Your task to perform on an android device: delete browsing data in the chrome app Image 0: 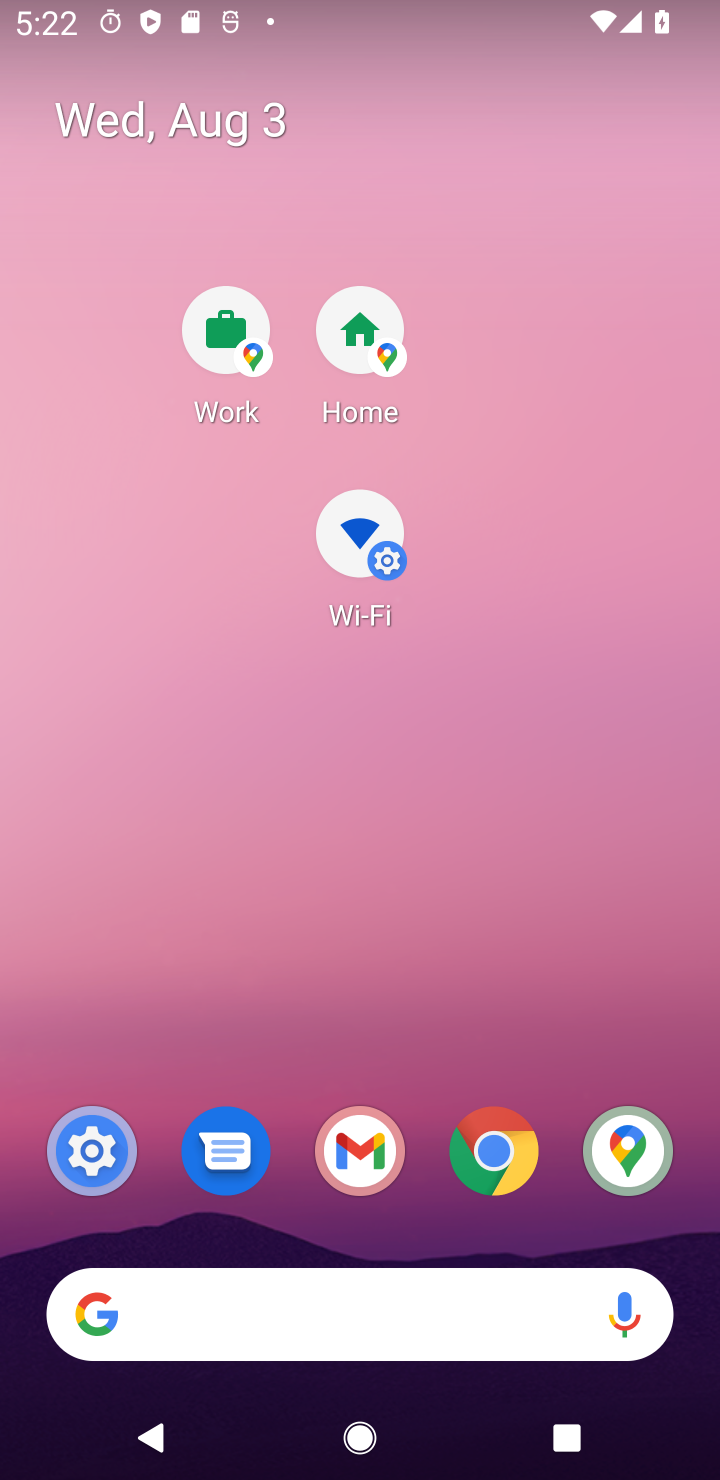
Step 0: drag from (532, 774) to (280, 293)
Your task to perform on an android device: delete browsing data in the chrome app Image 1: 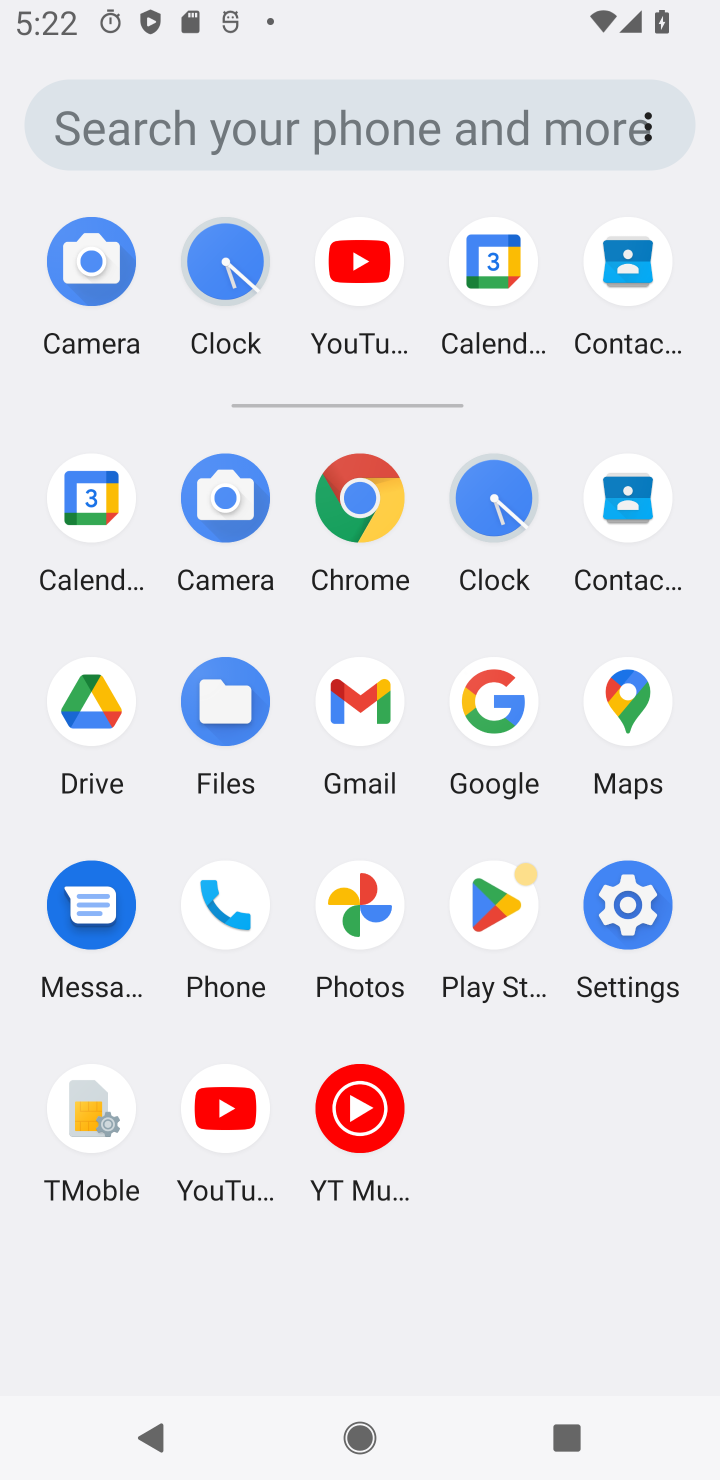
Step 1: click (367, 479)
Your task to perform on an android device: delete browsing data in the chrome app Image 2: 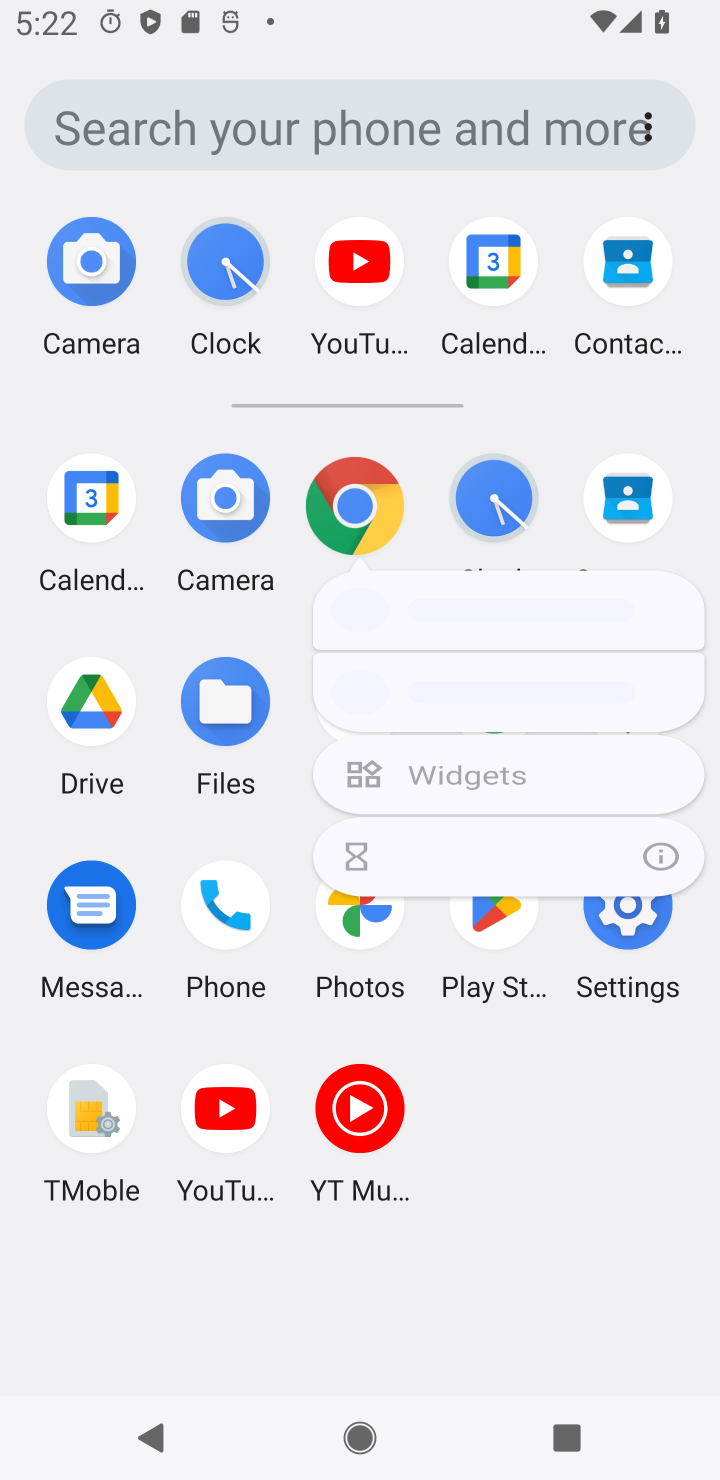
Step 2: click (371, 506)
Your task to perform on an android device: delete browsing data in the chrome app Image 3: 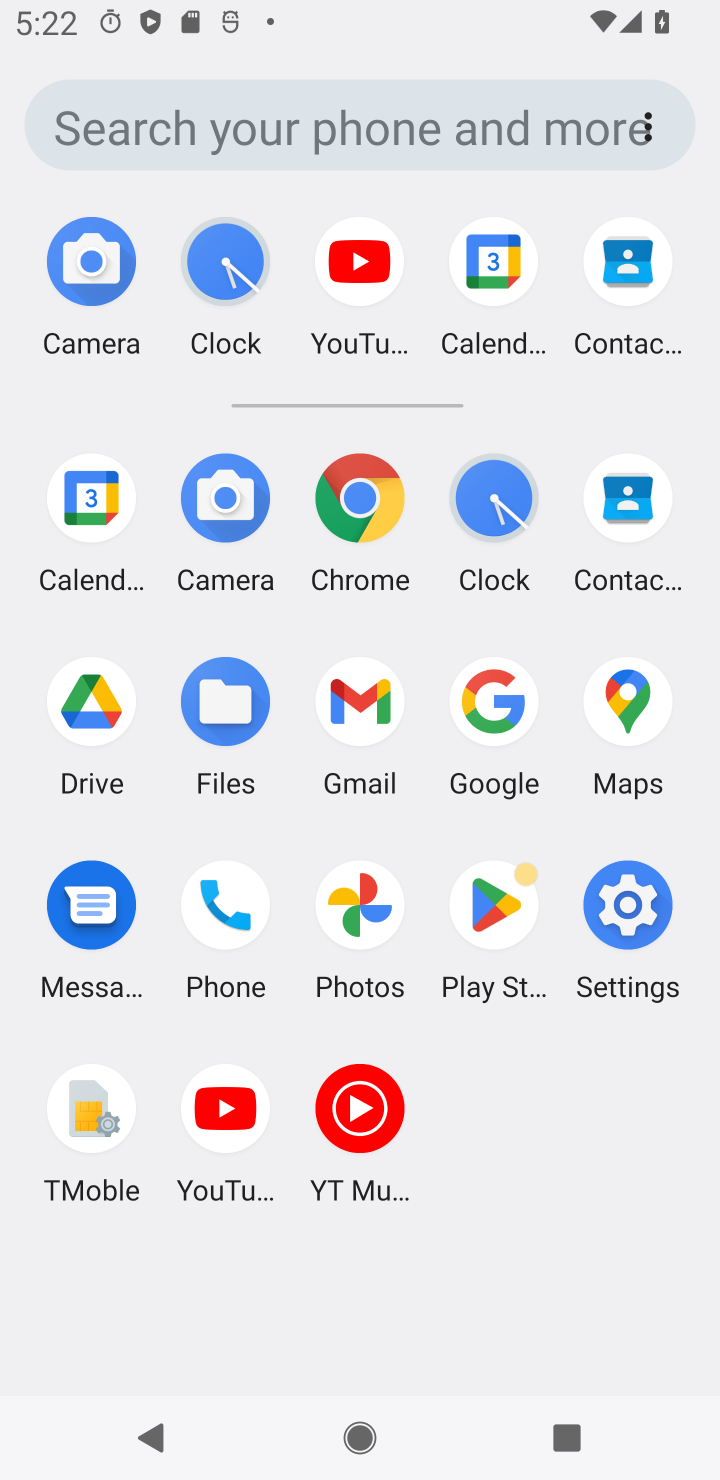
Step 3: click (373, 507)
Your task to perform on an android device: delete browsing data in the chrome app Image 4: 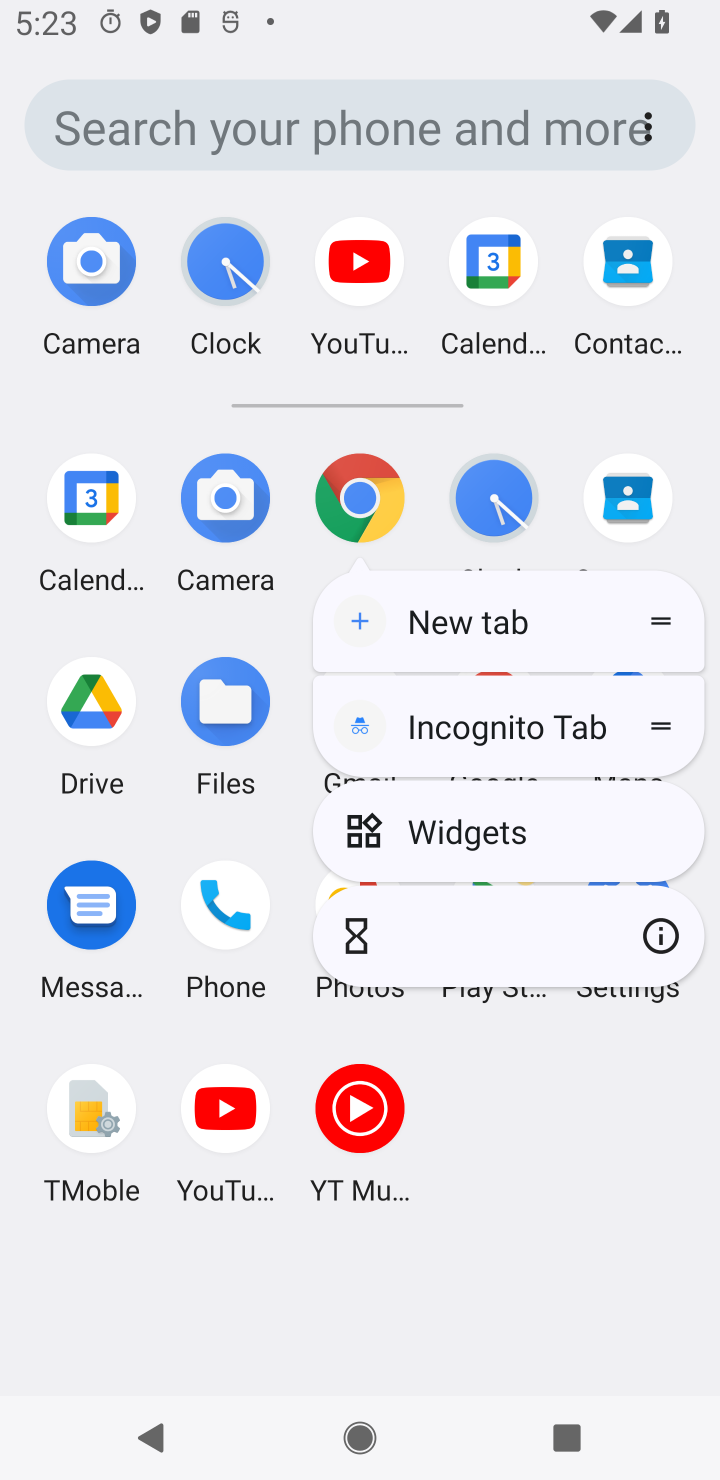
Step 4: click (434, 612)
Your task to perform on an android device: delete browsing data in the chrome app Image 5: 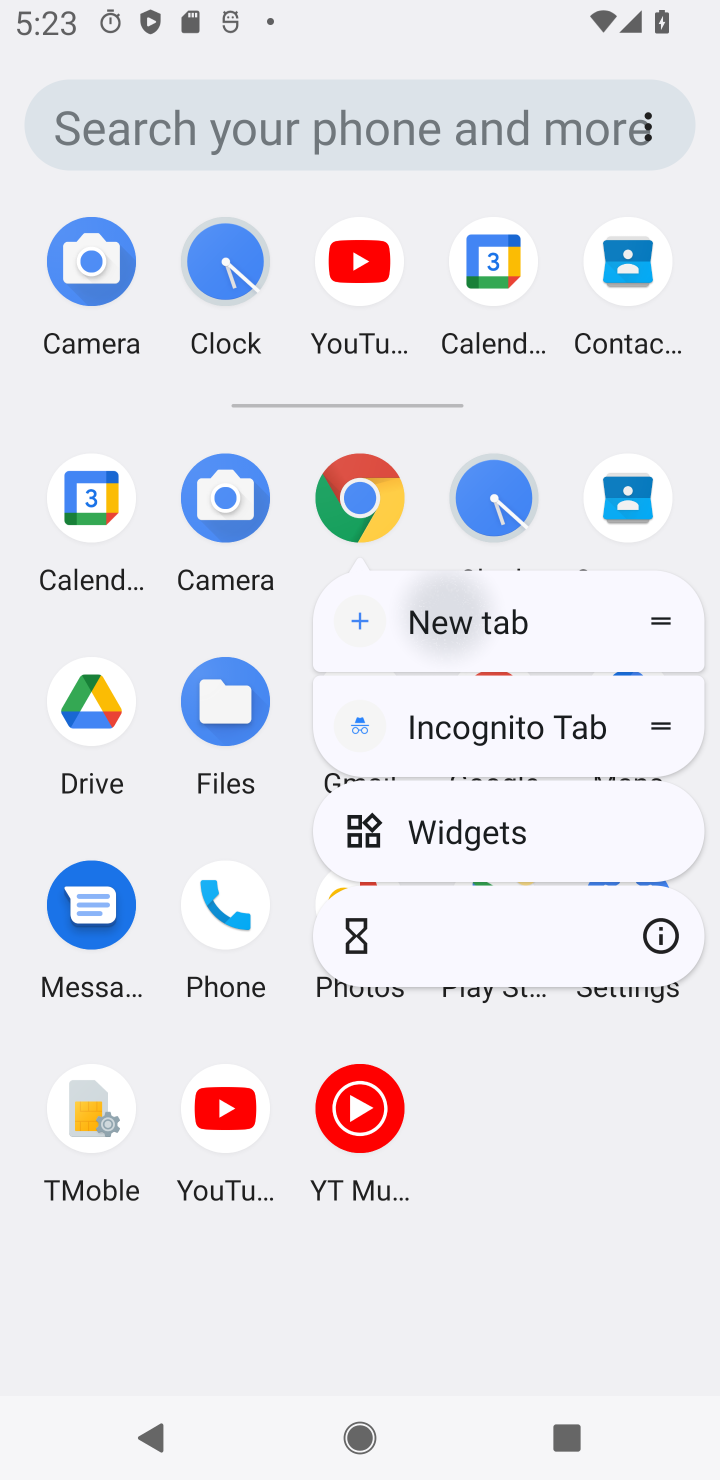
Step 5: click (434, 612)
Your task to perform on an android device: delete browsing data in the chrome app Image 6: 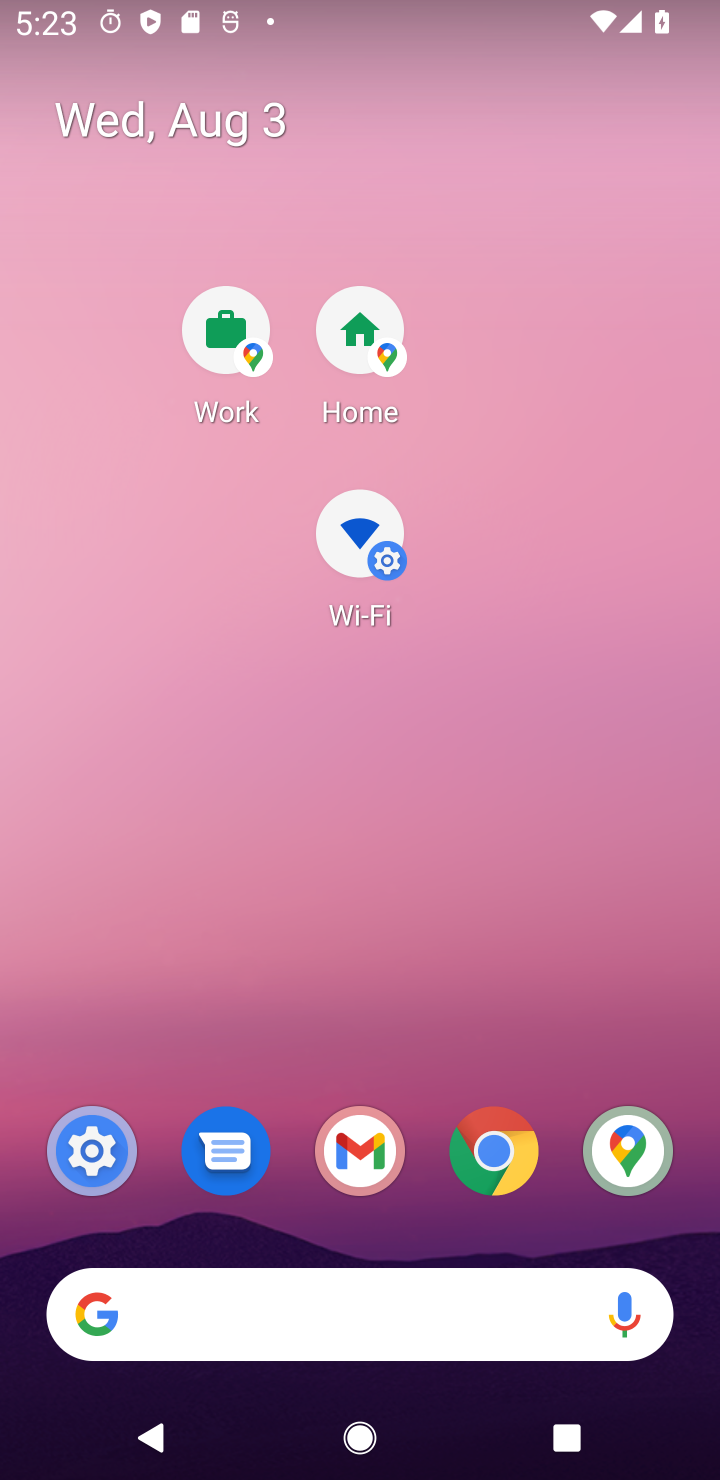
Step 6: click (463, 1153)
Your task to perform on an android device: delete browsing data in the chrome app Image 7: 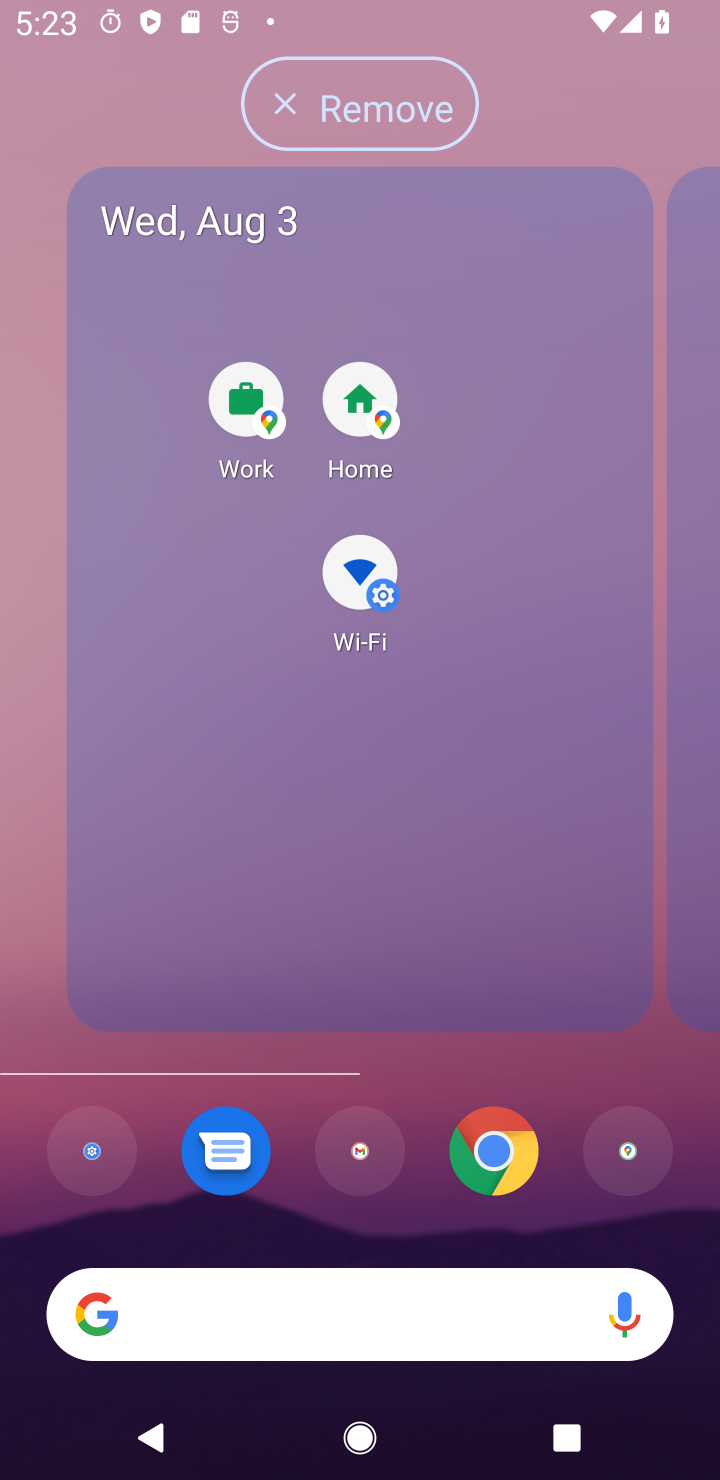
Step 7: click (518, 78)
Your task to perform on an android device: delete browsing data in the chrome app Image 8: 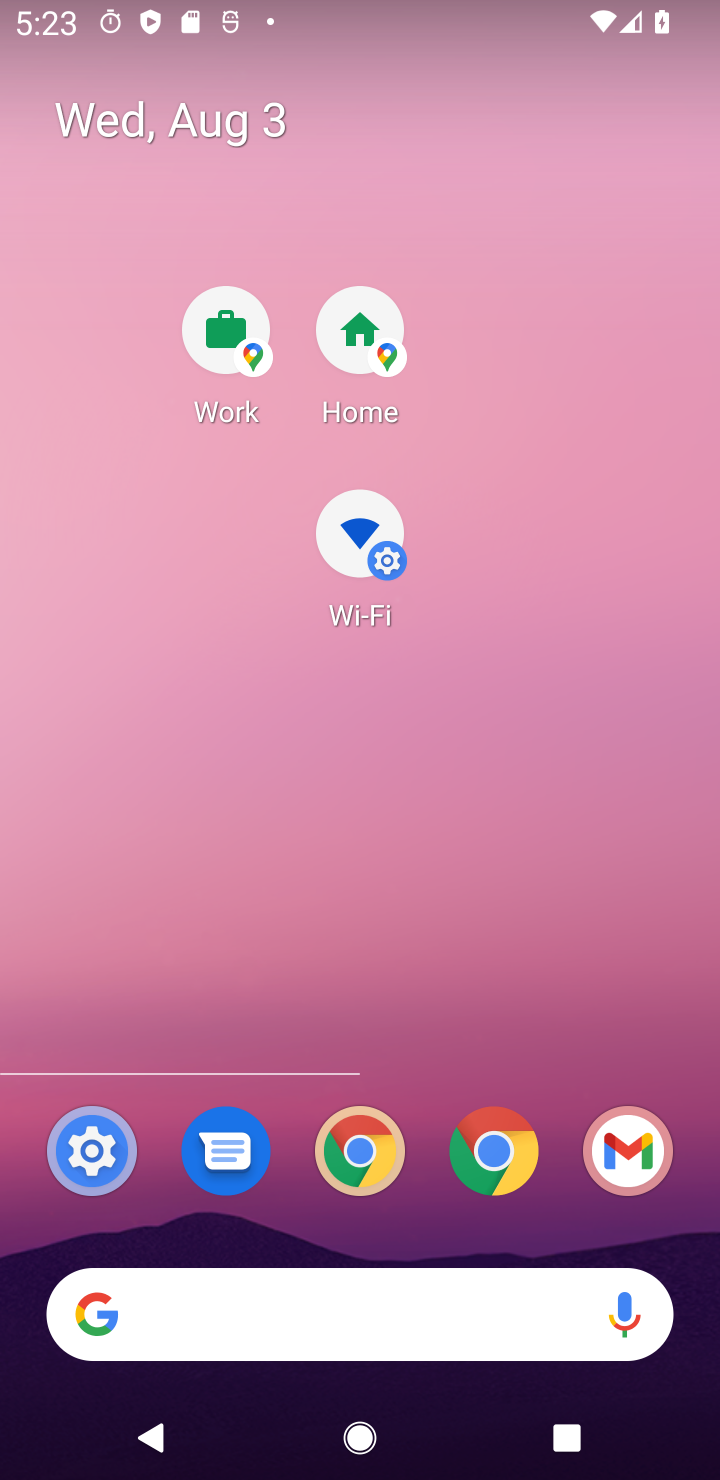
Step 8: click (520, 76)
Your task to perform on an android device: delete browsing data in the chrome app Image 9: 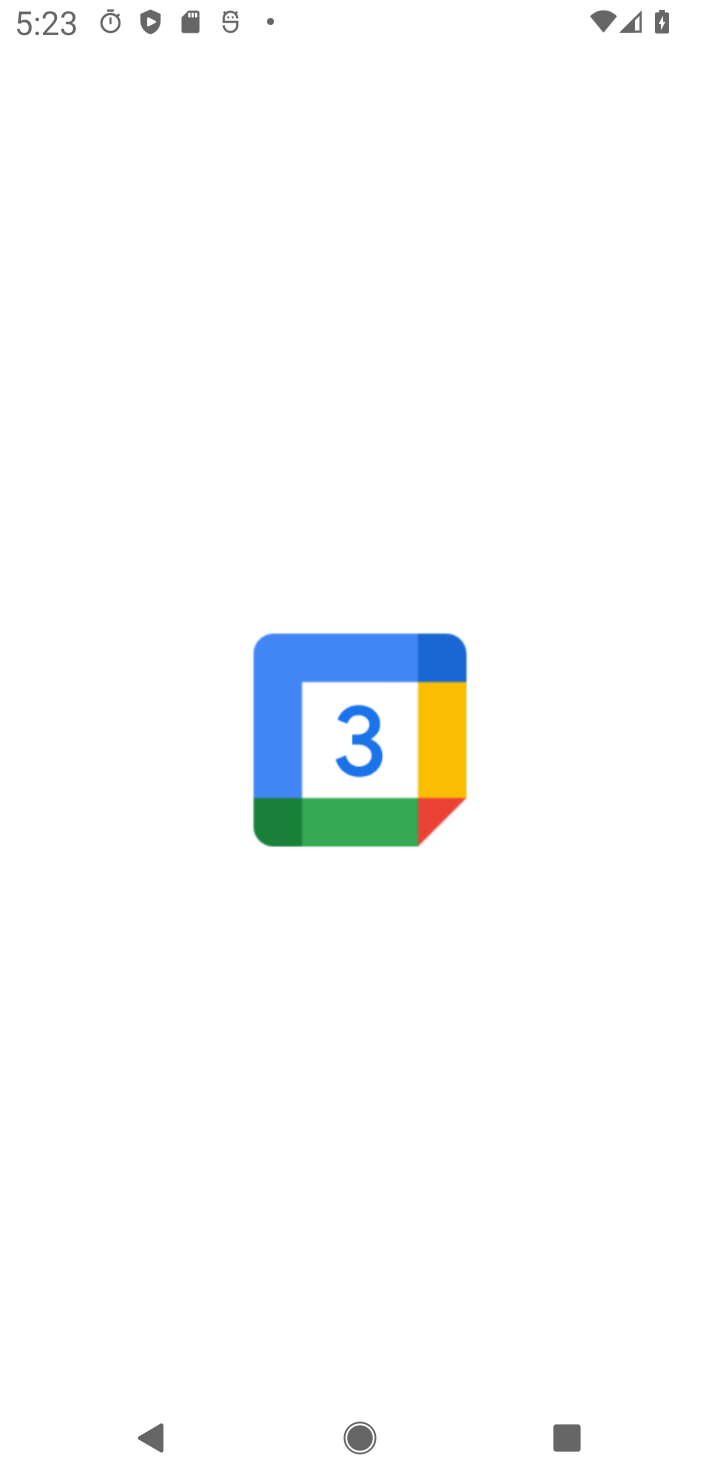
Step 9: drag from (371, 801) to (293, 349)
Your task to perform on an android device: delete browsing data in the chrome app Image 10: 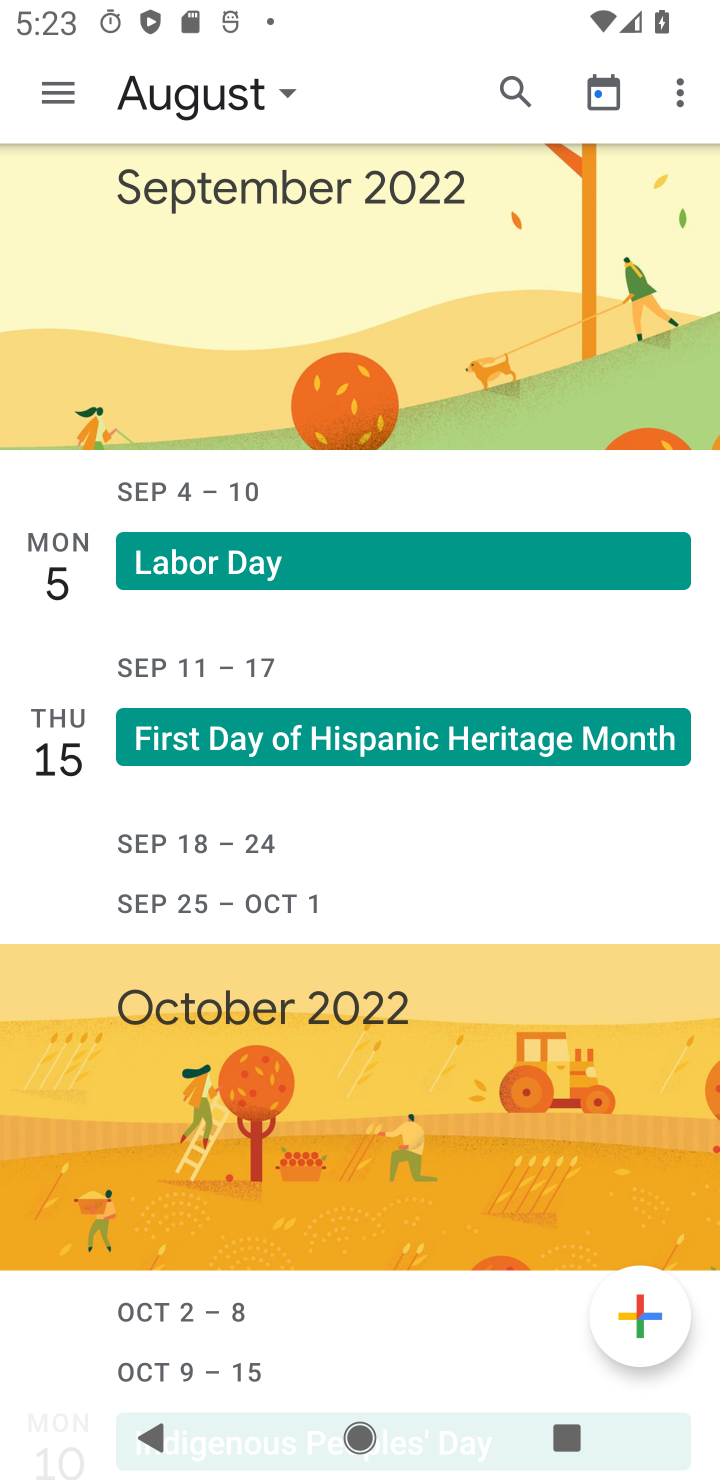
Step 10: press back button
Your task to perform on an android device: delete browsing data in the chrome app Image 11: 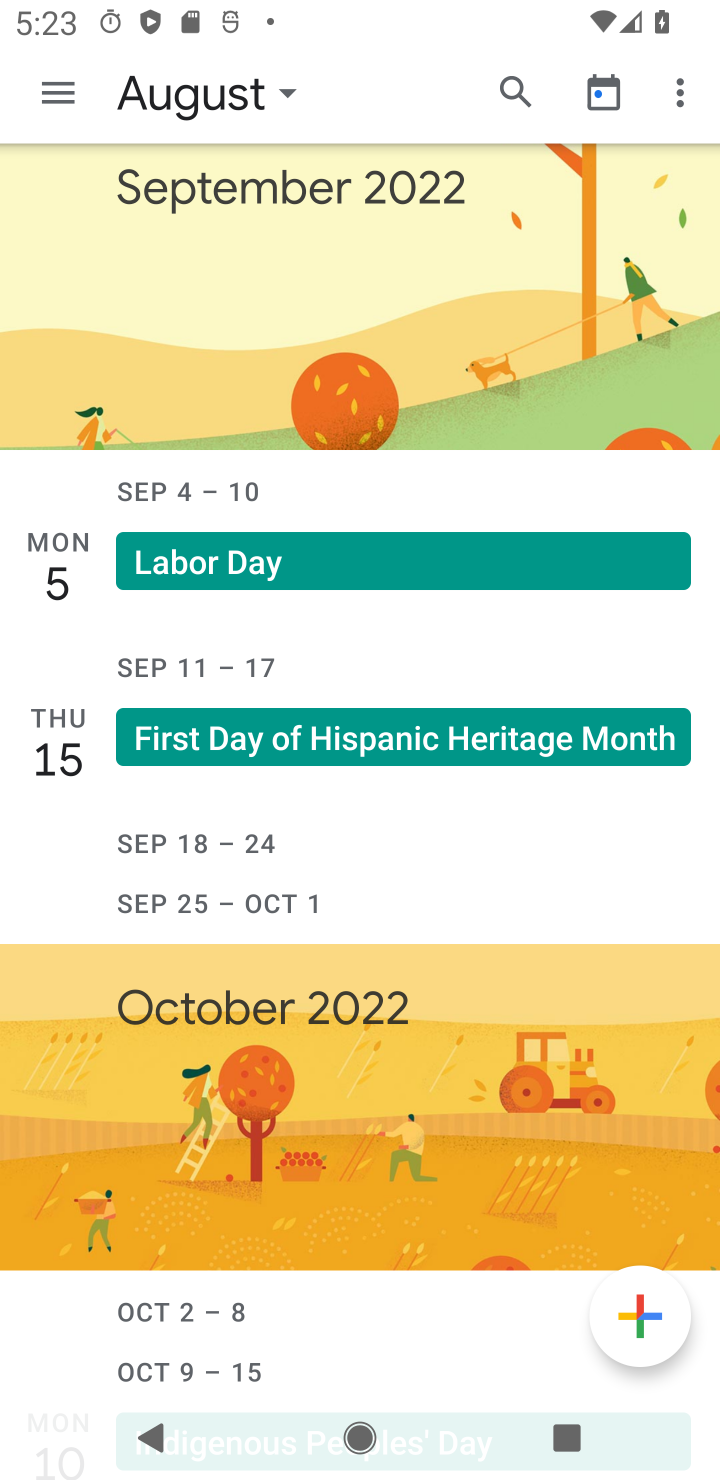
Step 11: press back button
Your task to perform on an android device: delete browsing data in the chrome app Image 12: 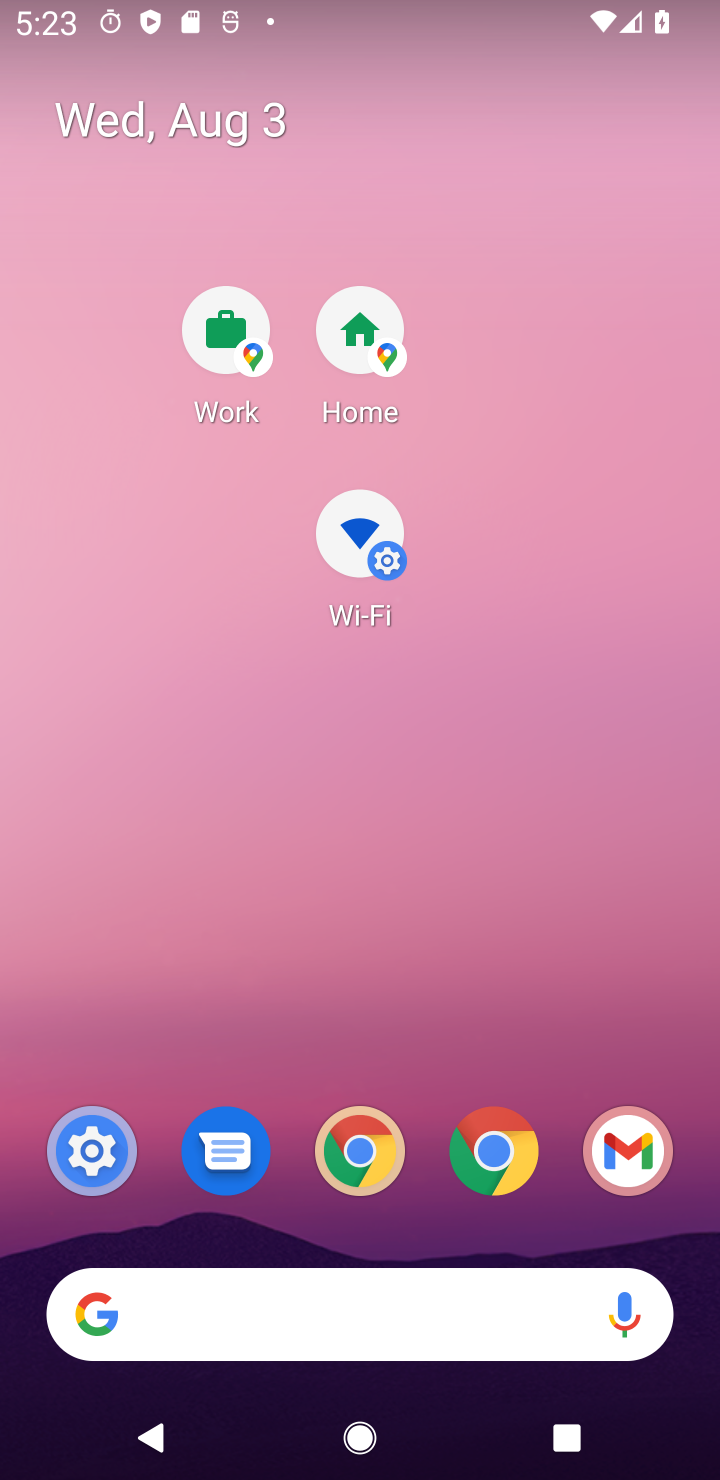
Step 12: click (279, 510)
Your task to perform on an android device: delete browsing data in the chrome app Image 13: 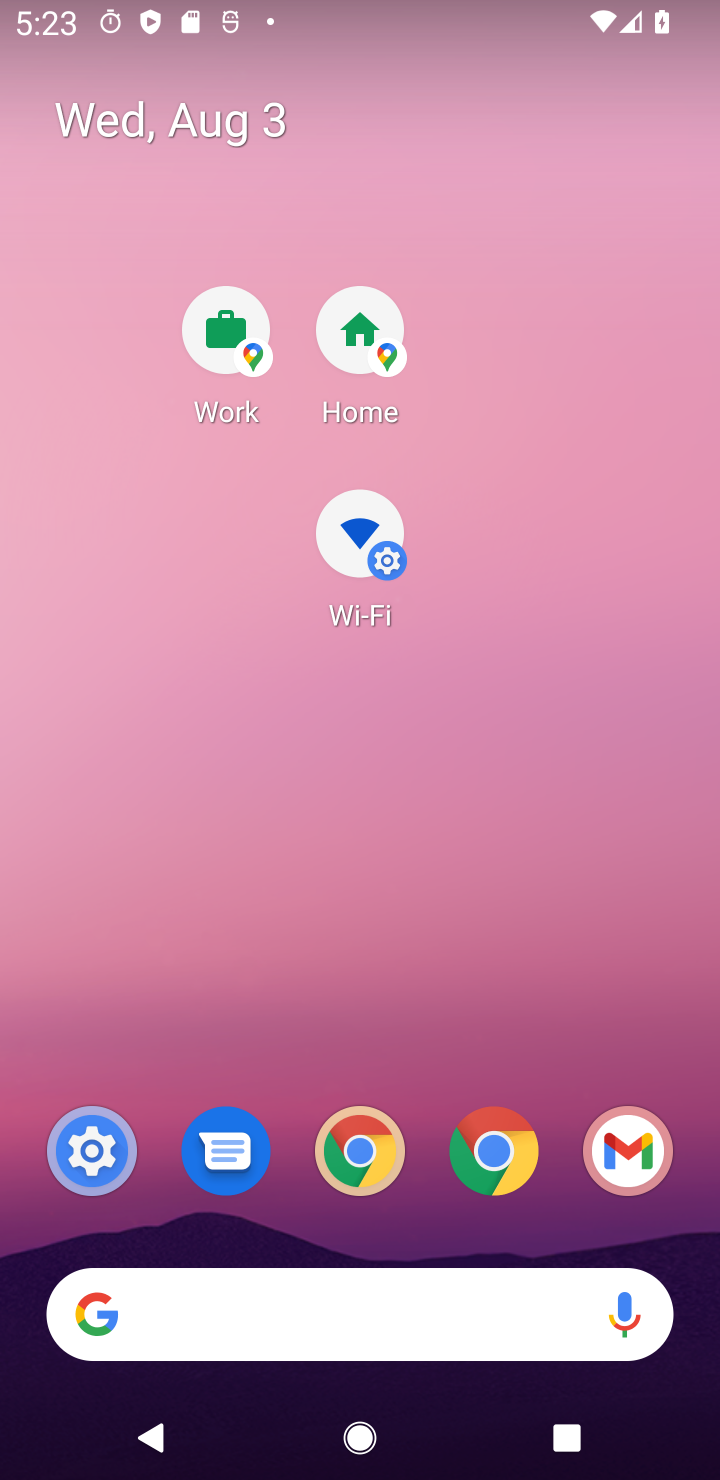
Step 13: drag from (422, 924) to (312, 298)
Your task to perform on an android device: delete browsing data in the chrome app Image 14: 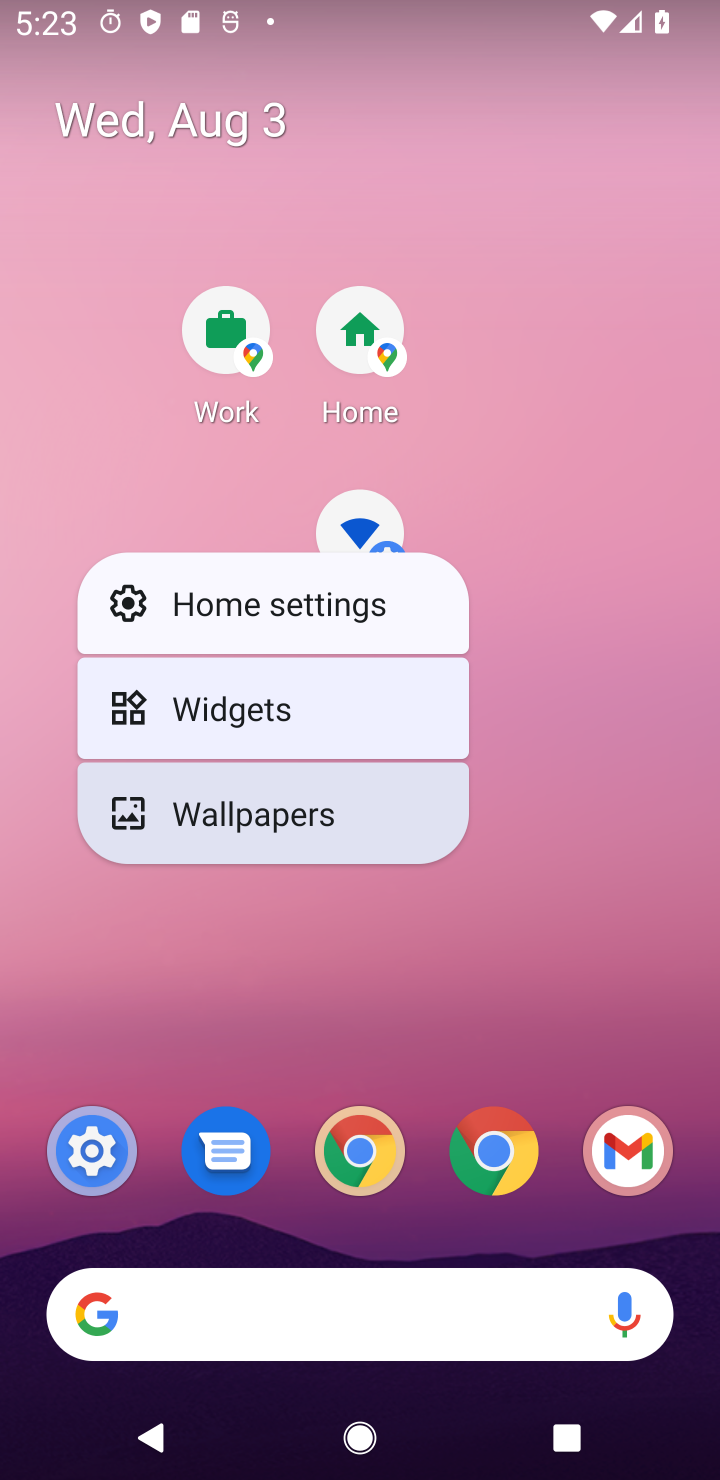
Step 14: drag from (457, 685) to (374, 378)
Your task to perform on an android device: delete browsing data in the chrome app Image 15: 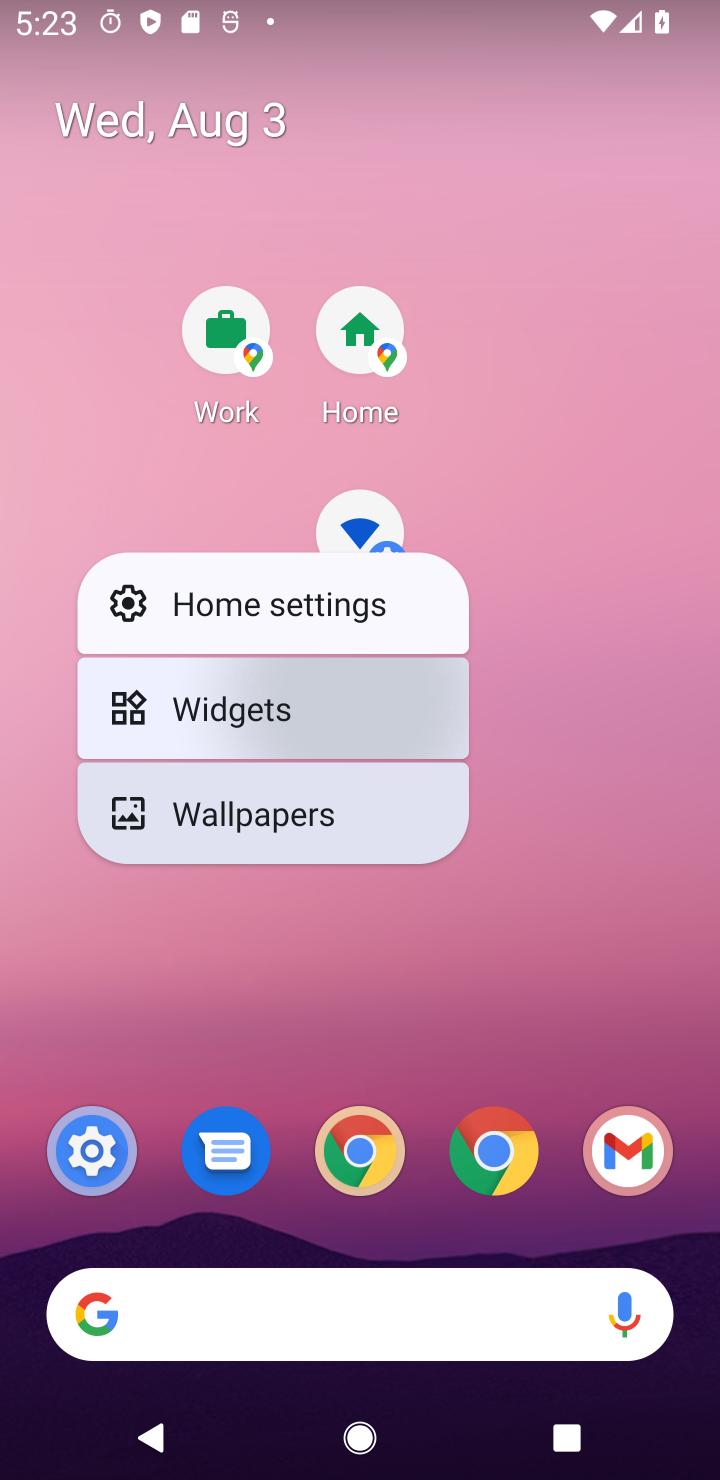
Step 15: drag from (365, 362) to (396, 439)
Your task to perform on an android device: delete browsing data in the chrome app Image 16: 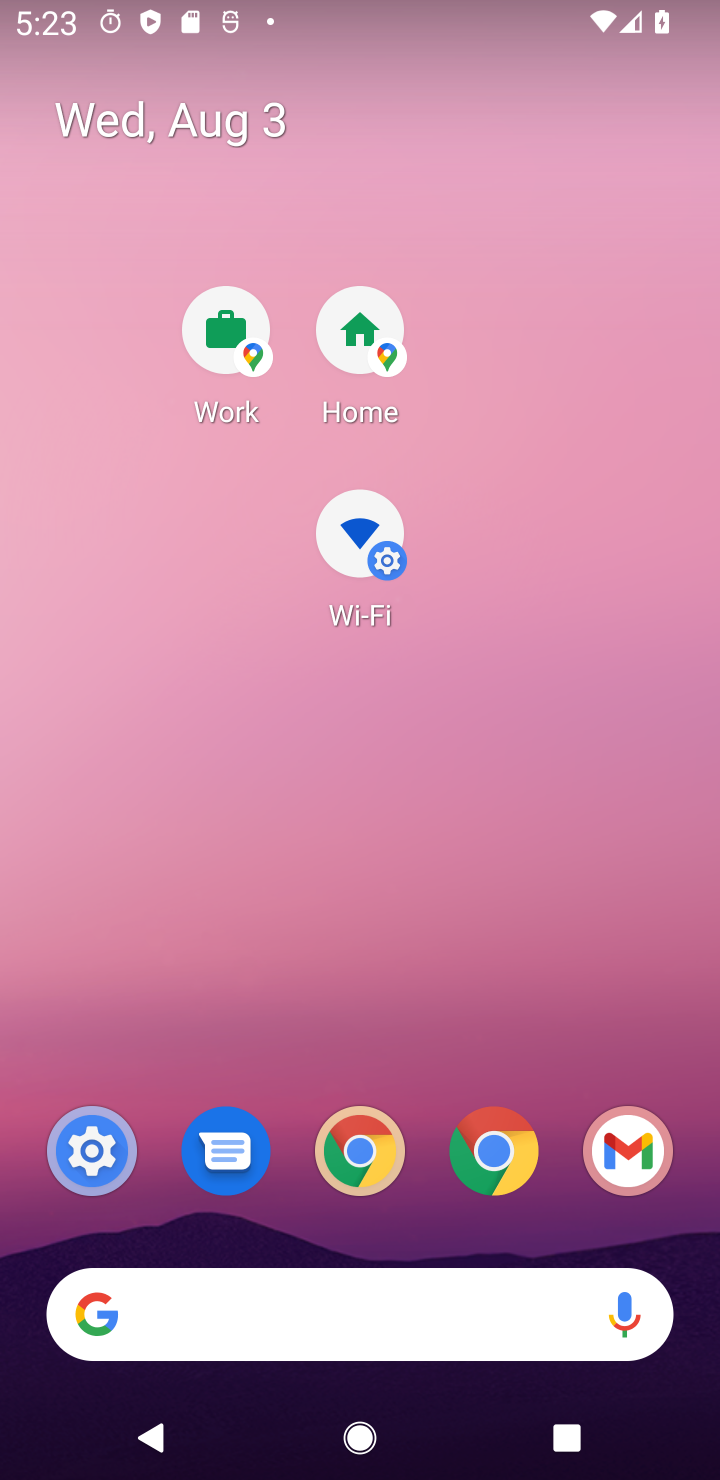
Step 16: drag from (439, 486) to (281, 646)
Your task to perform on an android device: delete browsing data in the chrome app Image 17: 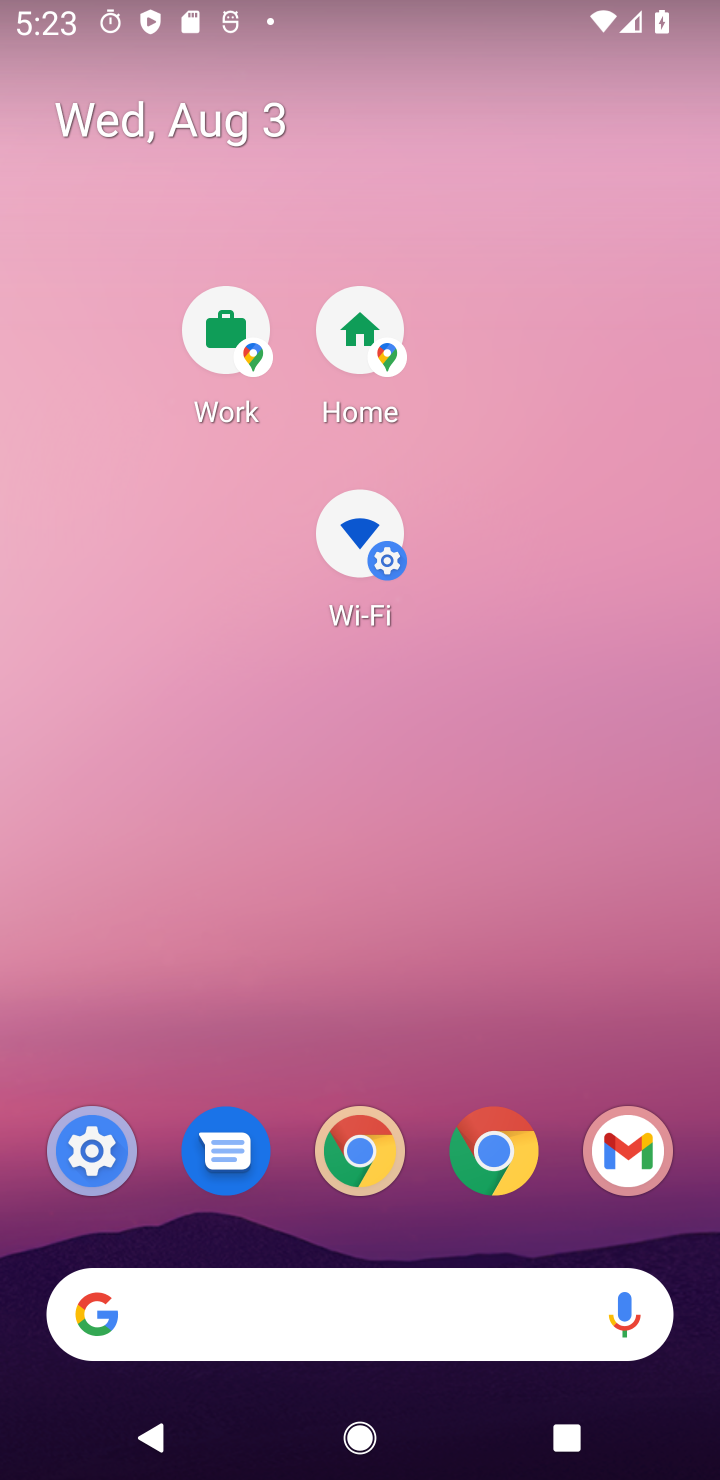
Step 17: drag from (453, 778) to (341, 387)
Your task to perform on an android device: delete browsing data in the chrome app Image 18: 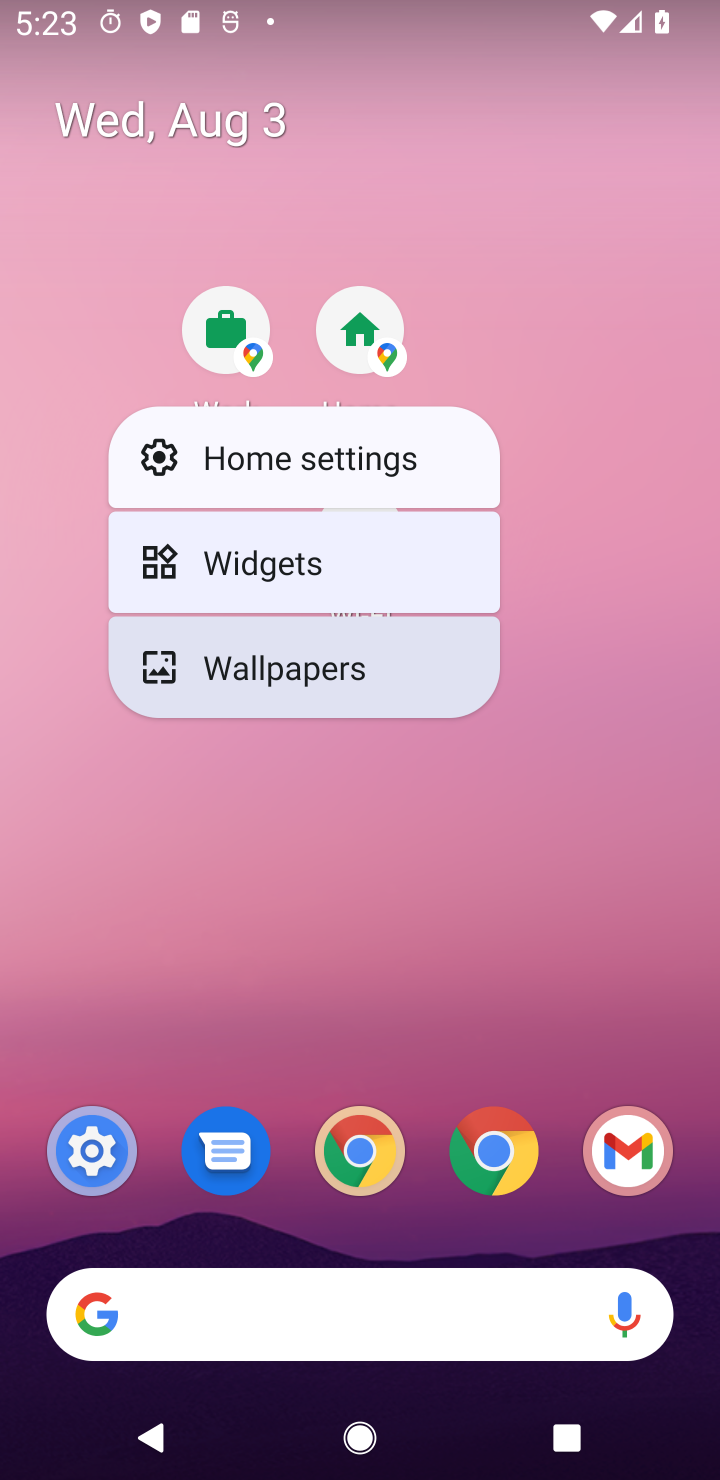
Step 18: click (414, 590)
Your task to perform on an android device: delete browsing data in the chrome app Image 19: 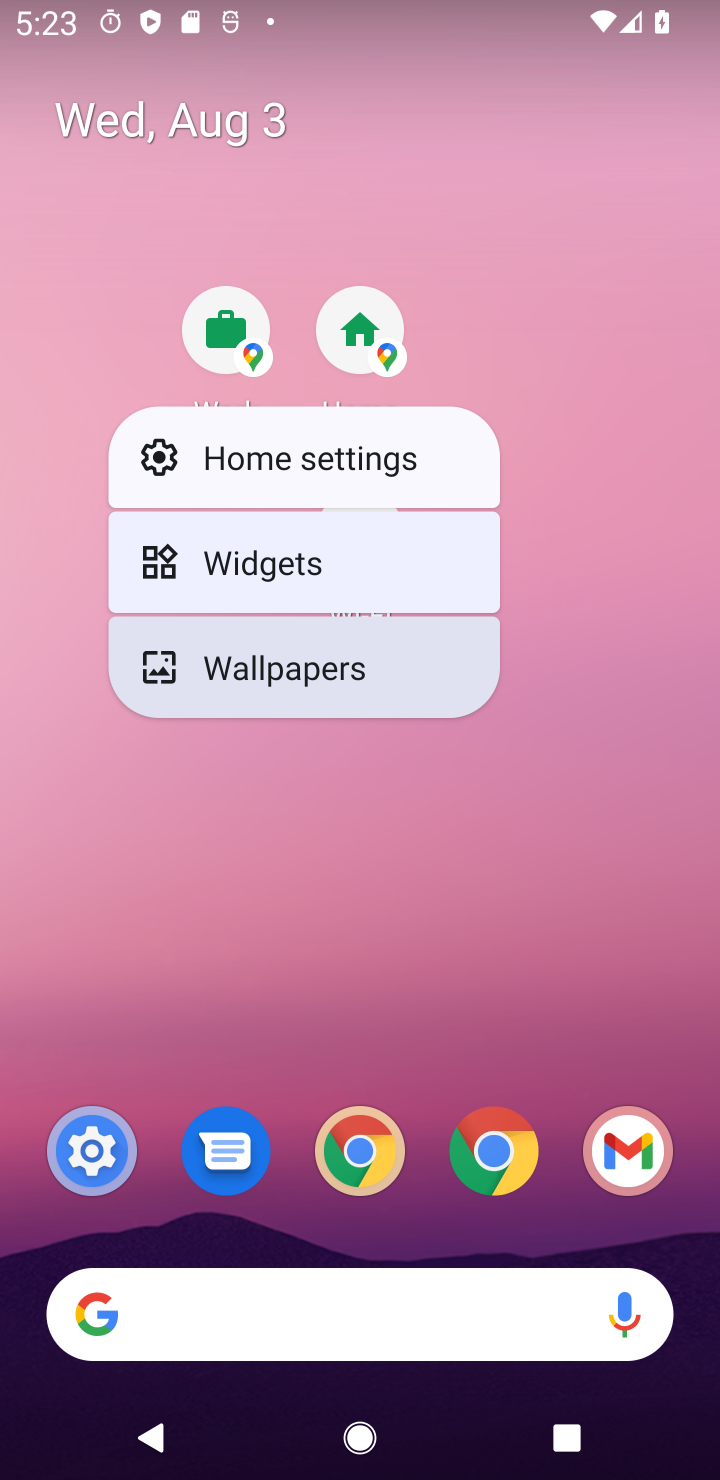
Step 19: drag from (426, 839) to (637, 411)
Your task to perform on an android device: delete browsing data in the chrome app Image 20: 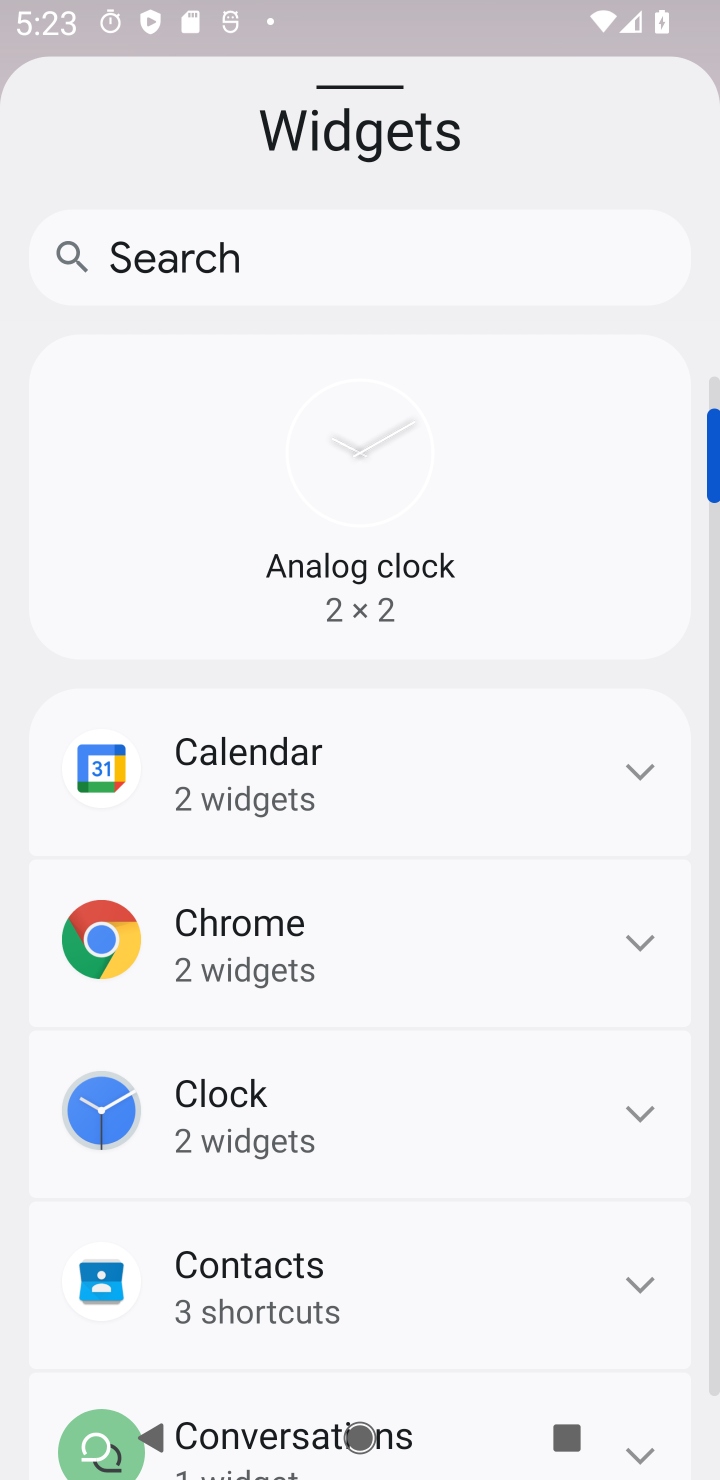
Step 20: press back button
Your task to perform on an android device: delete browsing data in the chrome app Image 21: 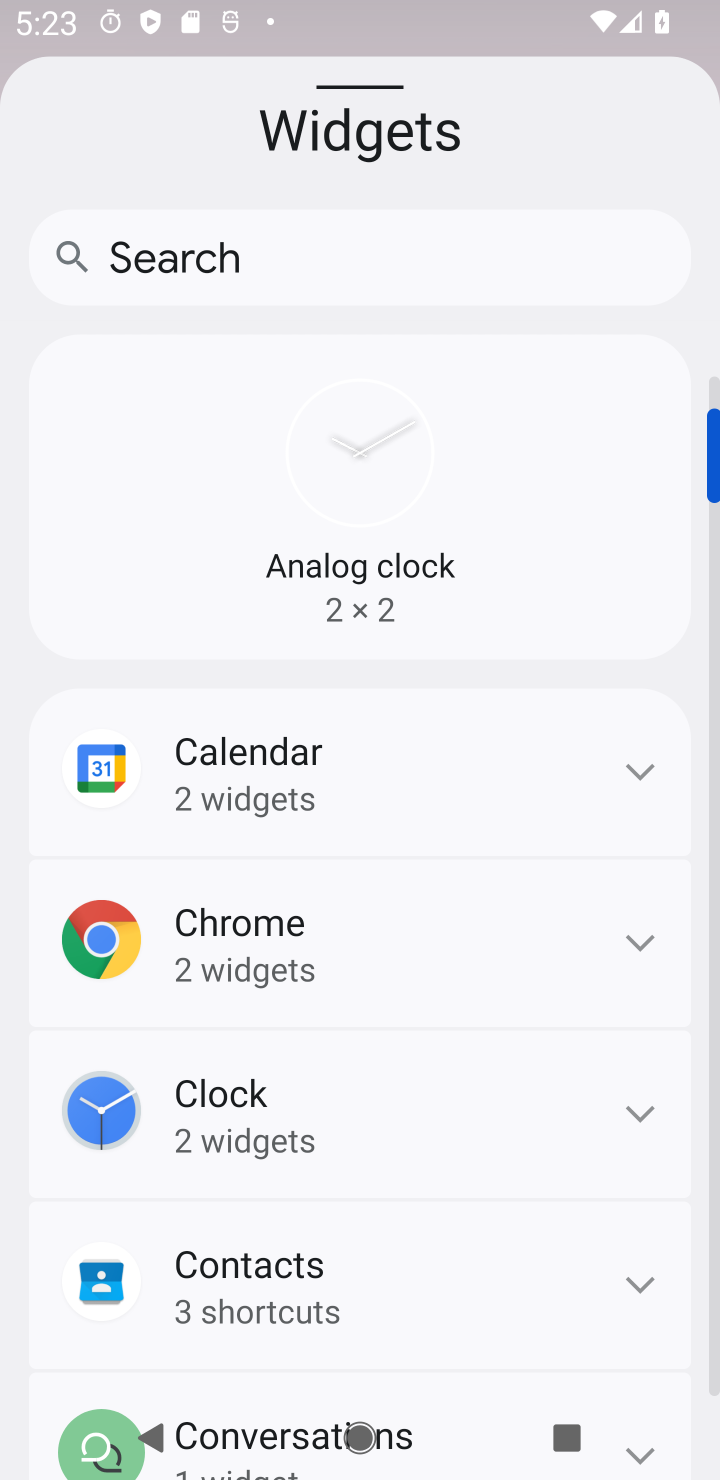
Step 21: press back button
Your task to perform on an android device: delete browsing data in the chrome app Image 22: 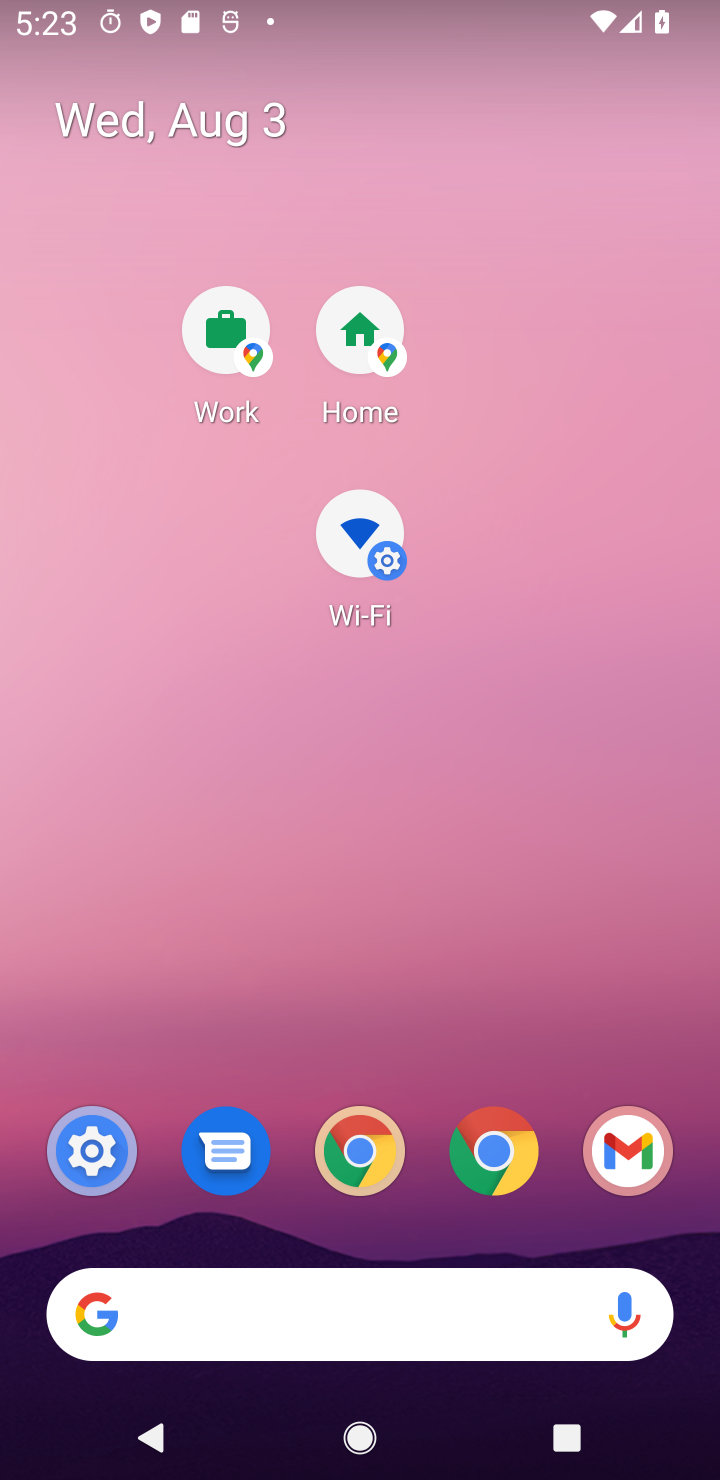
Step 22: press back button
Your task to perform on an android device: delete browsing data in the chrome app Image 23: 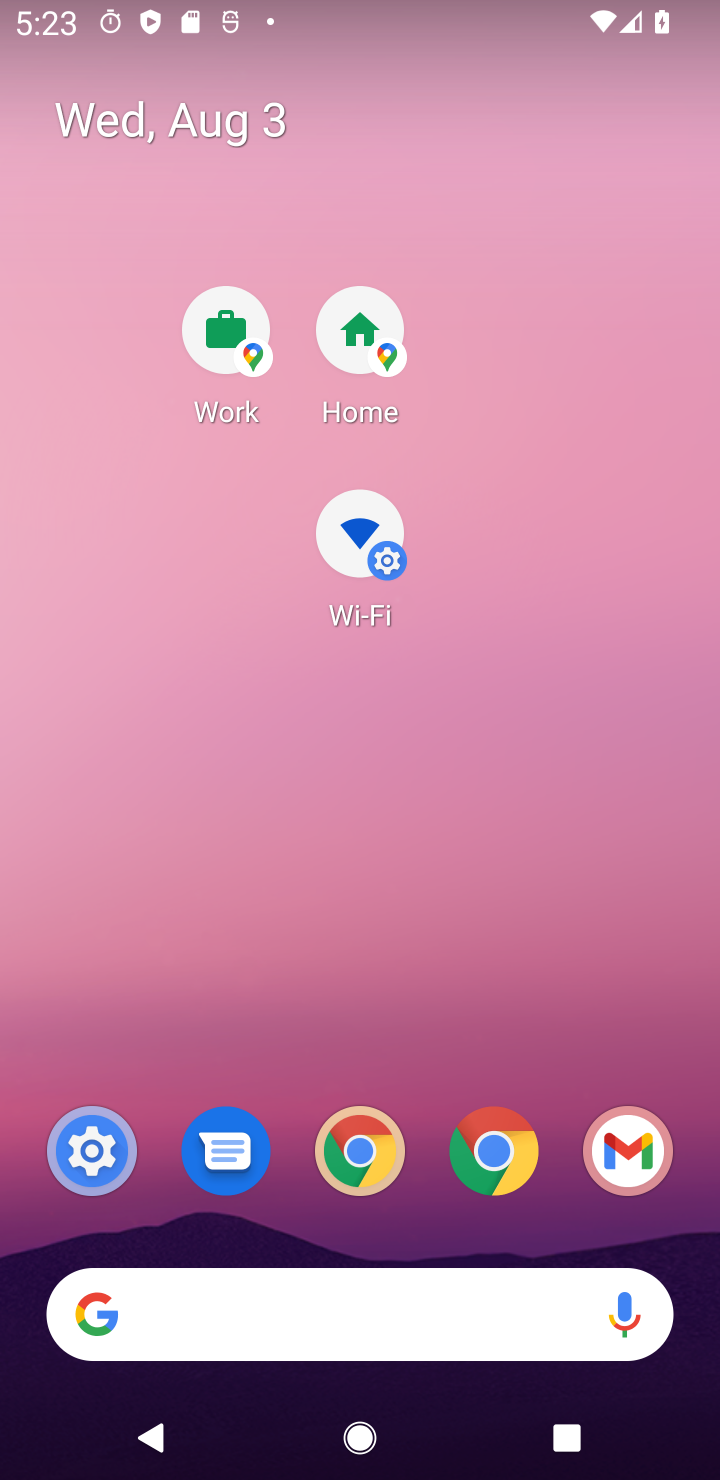
Step 23: press back button
Your task to perform on an android device: delete browsing data in the chrome app Image 24: 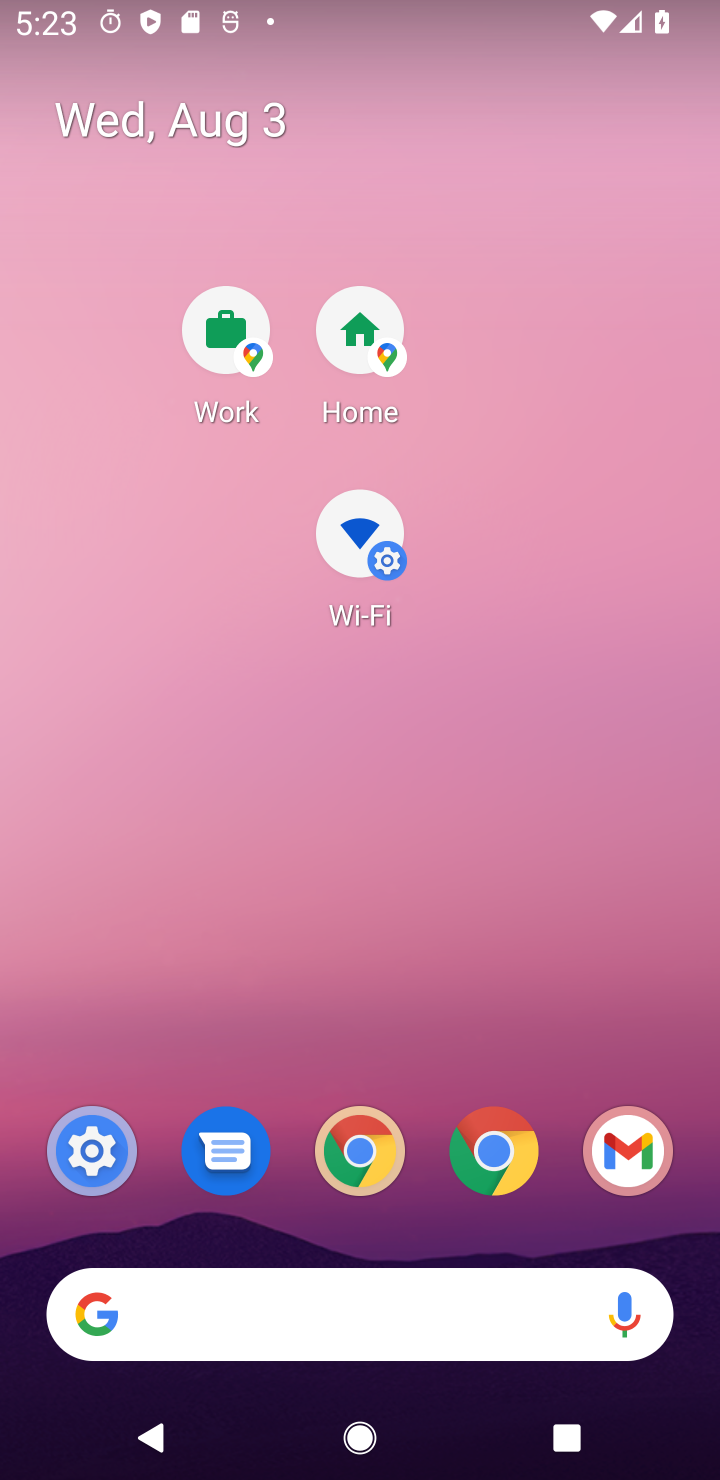
Step 24: click (266, 437)
Your task to perform on an android device: delete browsing data in the chrome app Image 25: 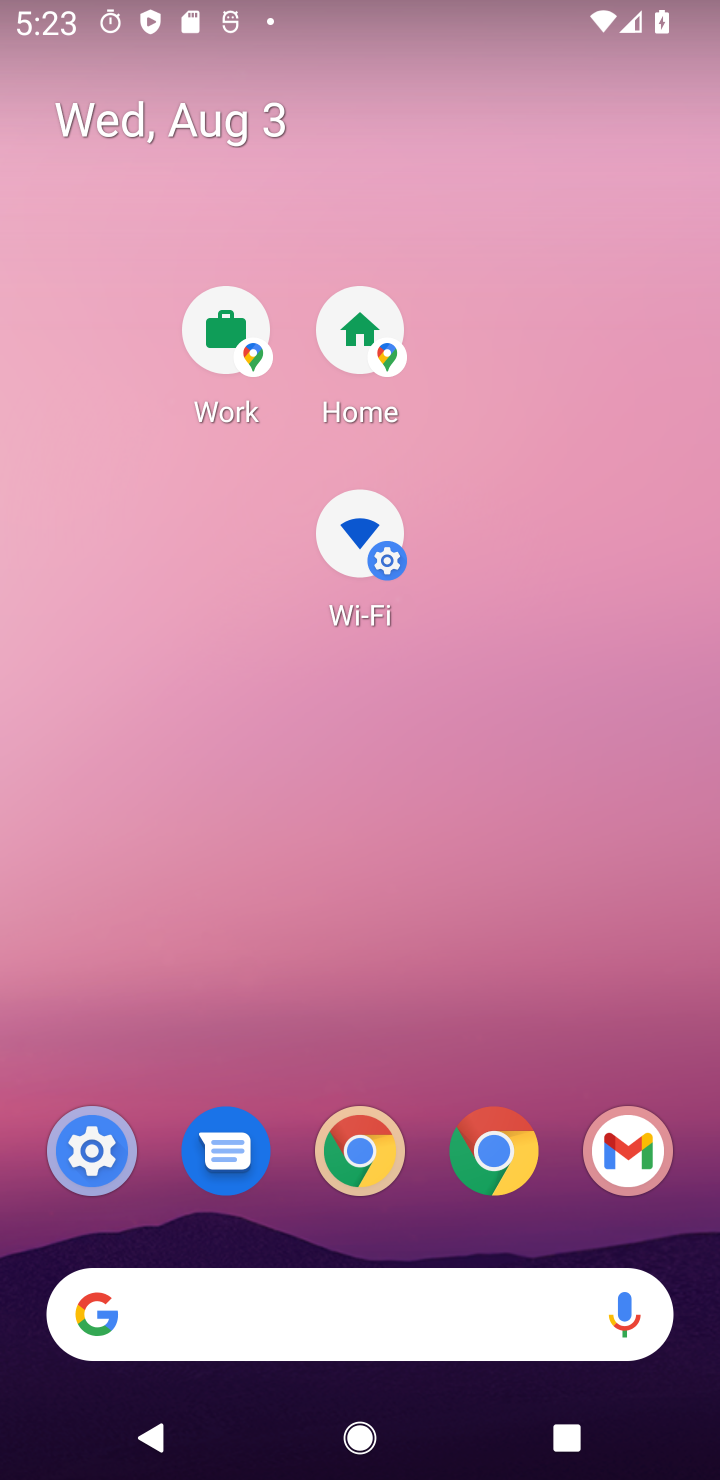
Step 25: drag from (533, 1341) to (282, 347)
Your task to perform on an android device: delete browsing data in the chrome app Image 26: 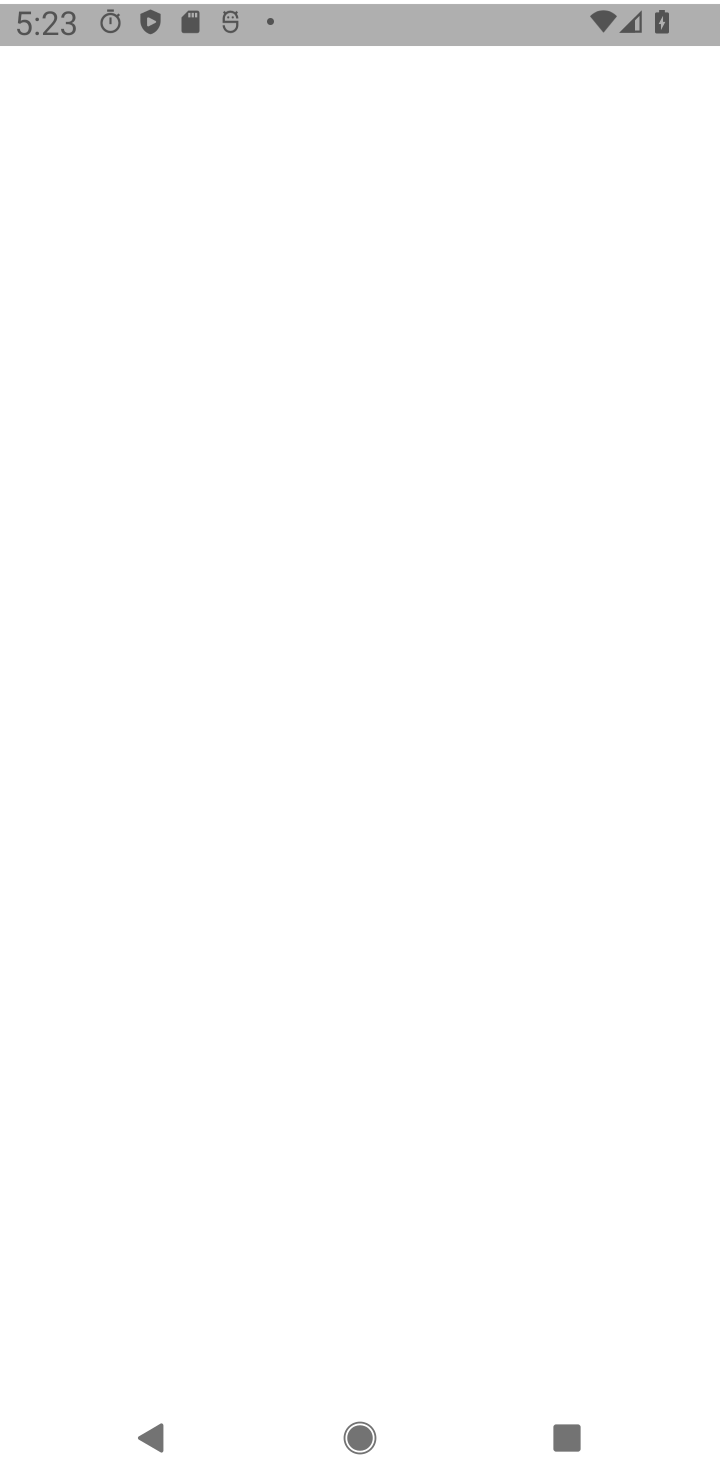
Step 26: click (340, 305)
Your task to perform on an android device: delete browsing data in the chrome app Image 27: 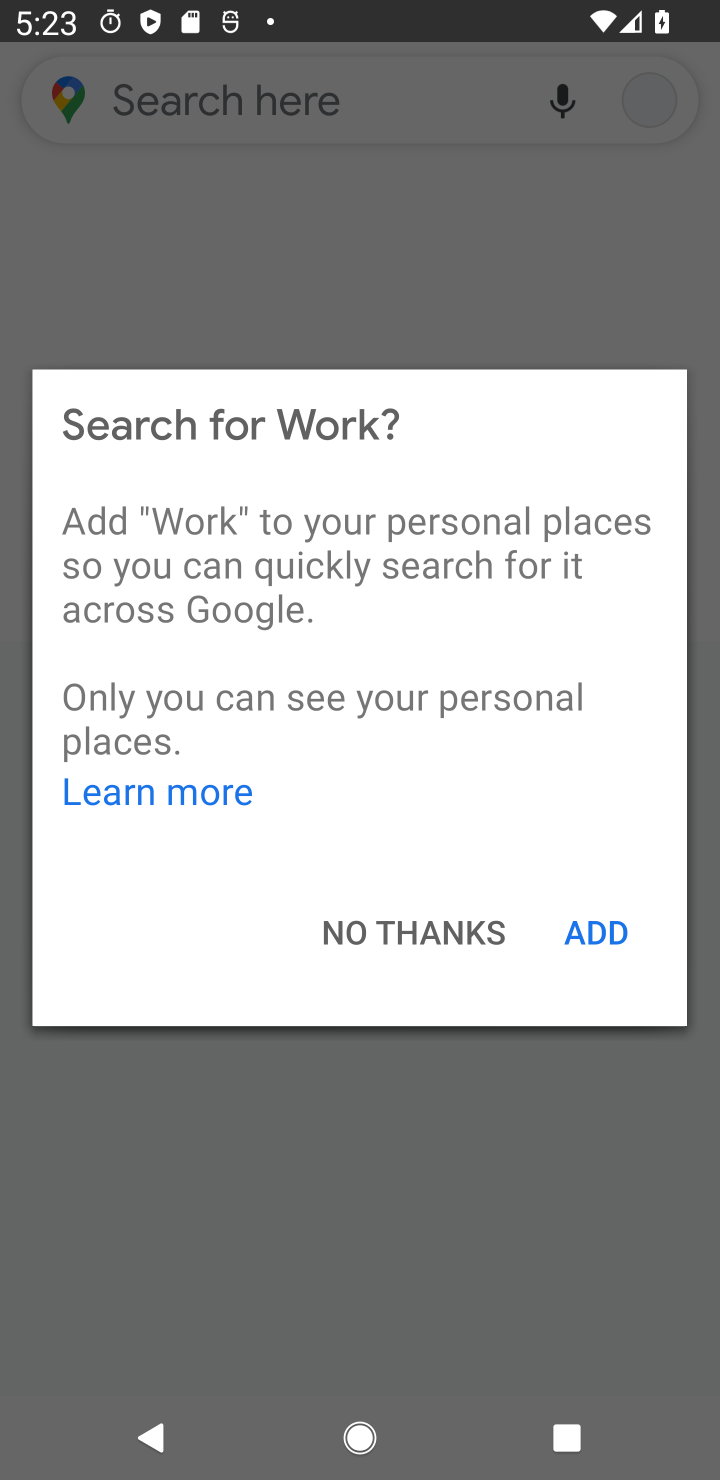
Step 27: press home button
Your task to perform on an android device: delete browsing data in the chrome app Image 28: 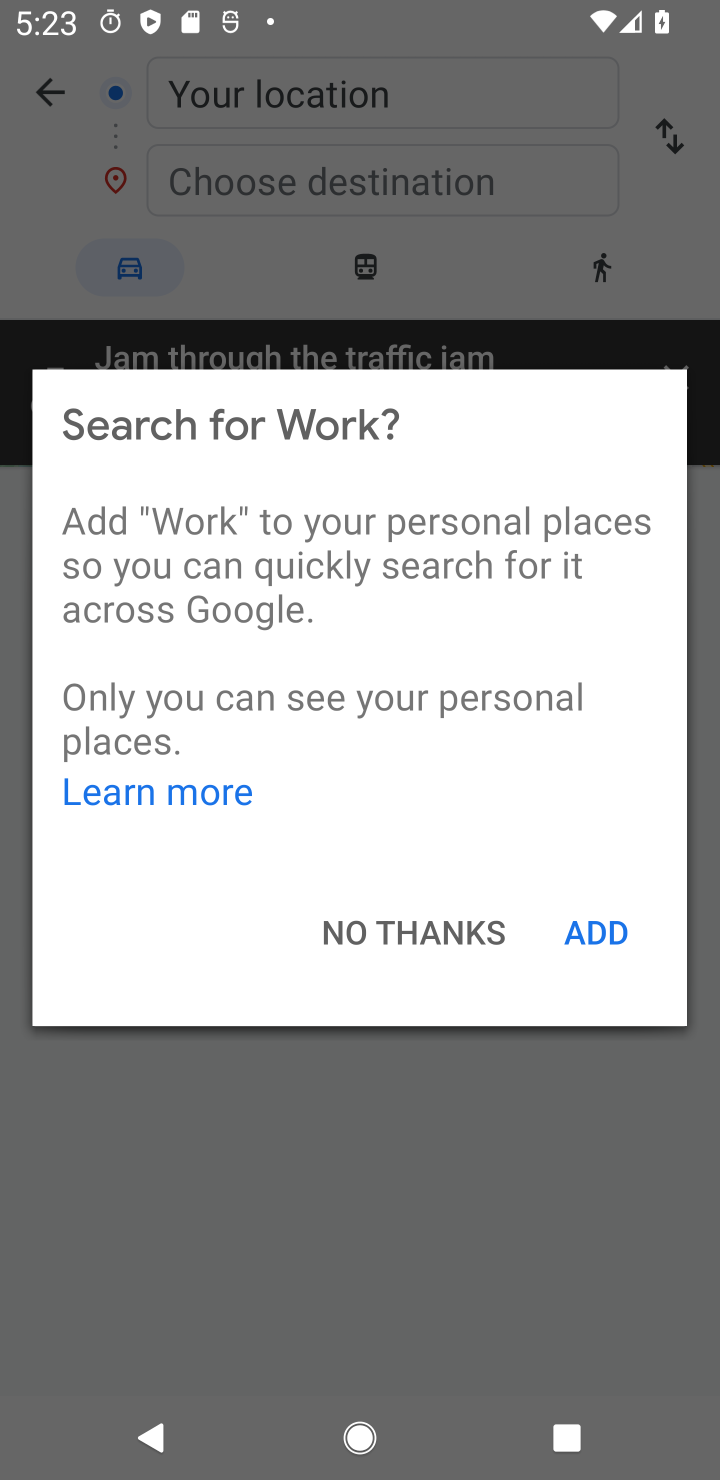
Step 28: press back button
Your task to perform on an android device: delete browsing data in the chrome app Image 29: 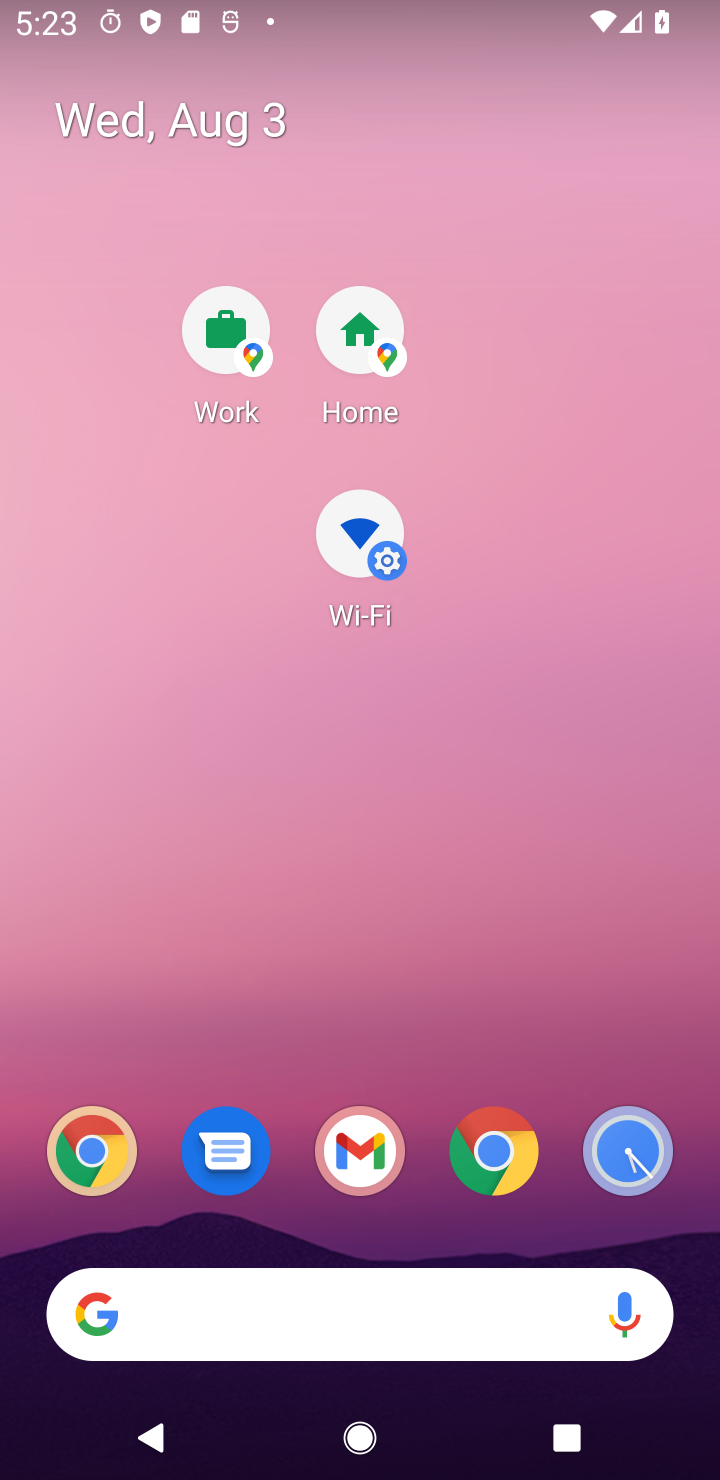
Step 29: drag from (352, 1173) to (208, 155)
Your task to perform on an android device: delete browsing data in the chrome app Image 30: 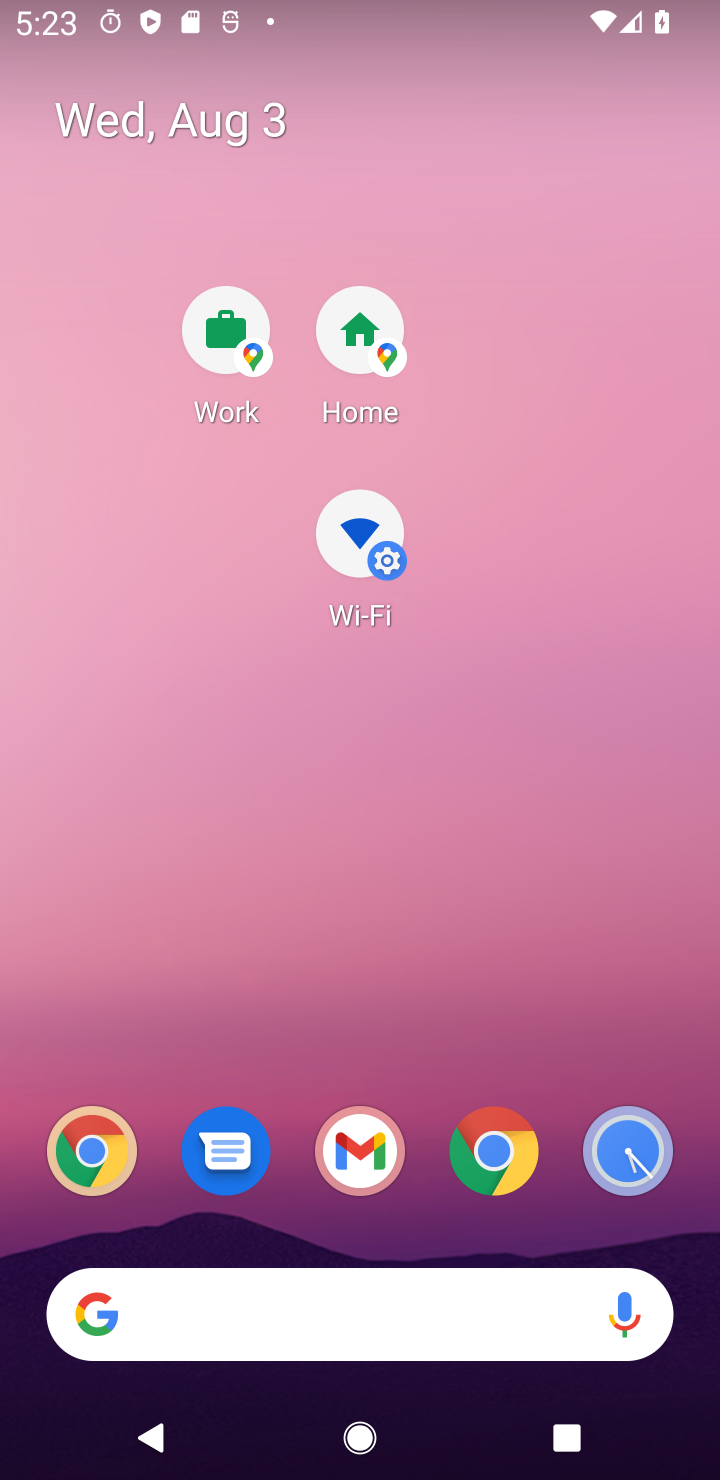
Step 30: drag from (420, 618) to (399, 509)
Your task to perform on an android device: delete browsing data in the chrome app Image 31: 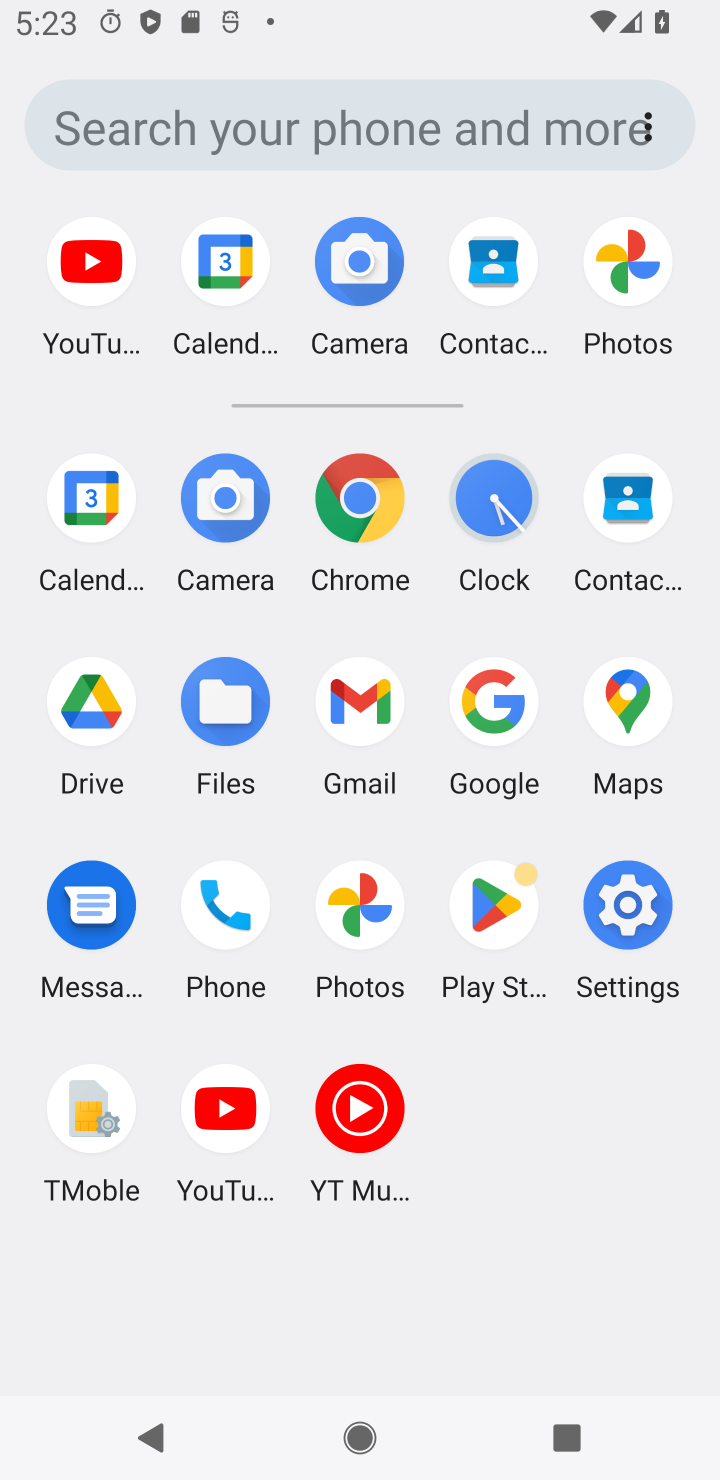
Step 31: click (356, 487)
Your task to perform on an android device: delete browsing data in the chrome app Image 32: 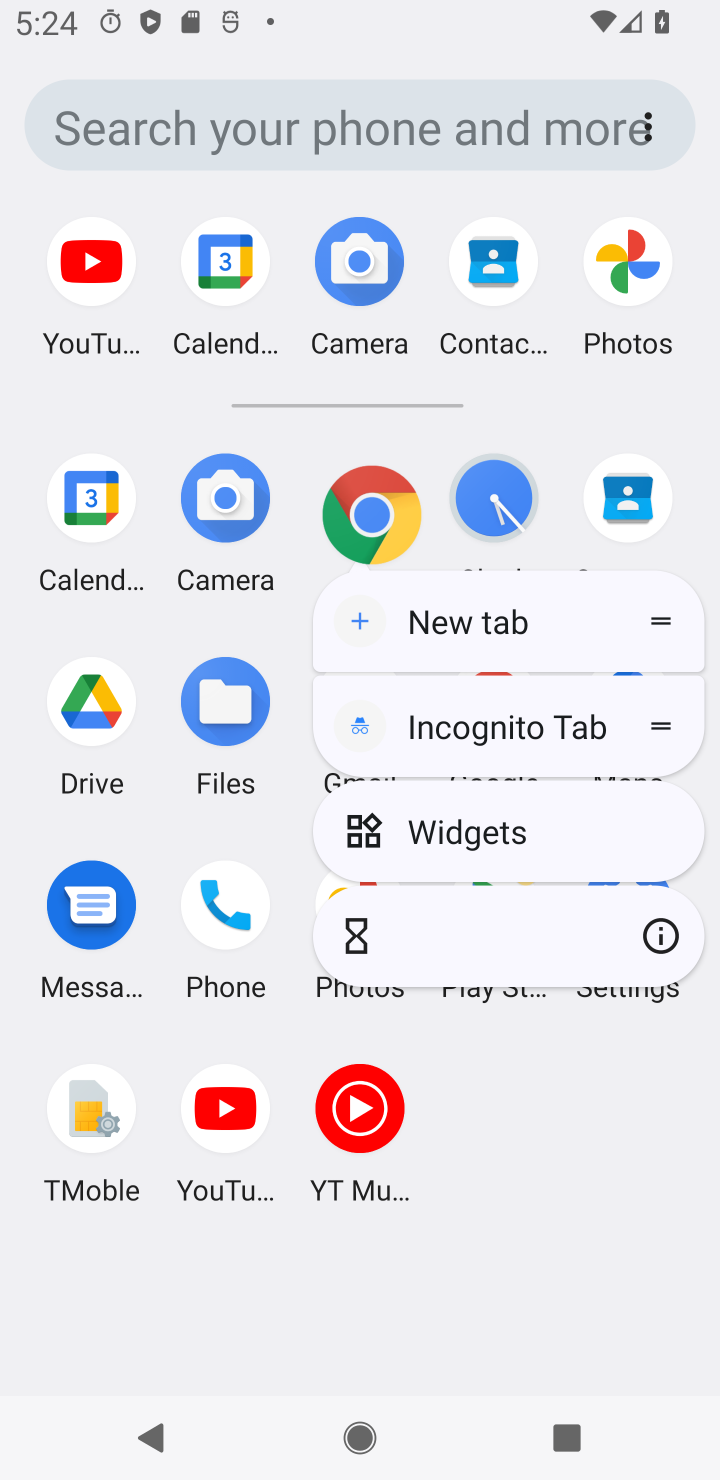
Step 32: click (368, 504)
Your task to perform on an android device: delete browsing data in the chrome app Image 33: 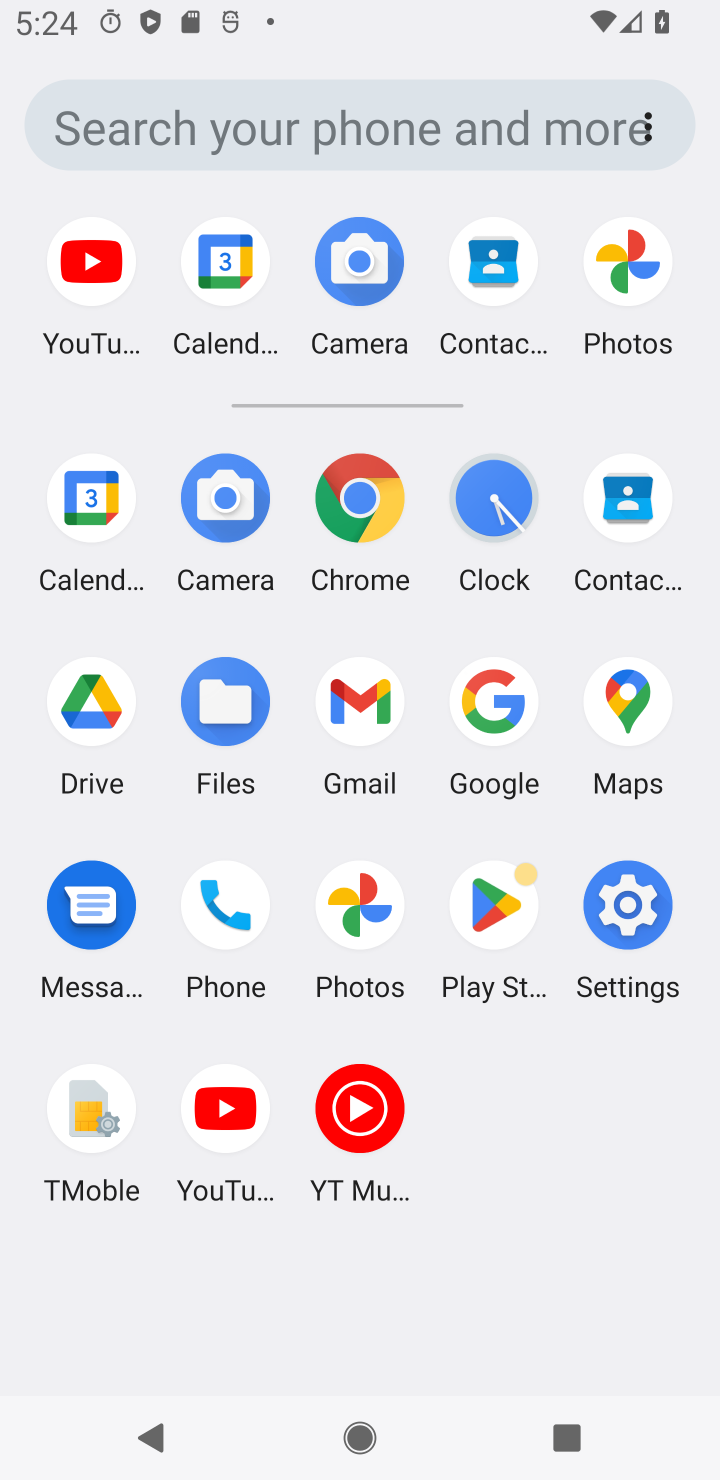
Step 33: click (373, 506)
Your task to perform on an android device: delete browsing data in the chrome app Image 34: 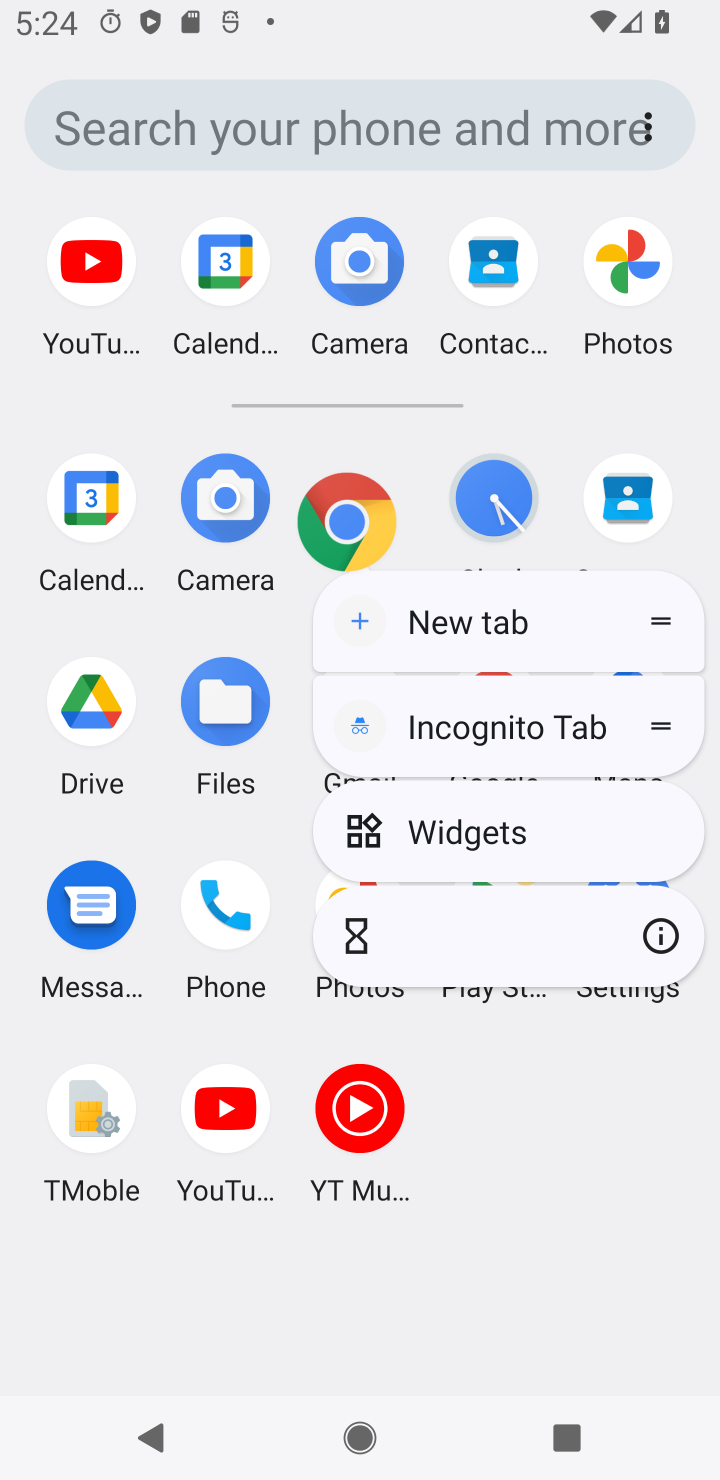
Step 34: click (360, 530)
Your task to perform on an android device: delete browsing data in the chrome app Image 35: 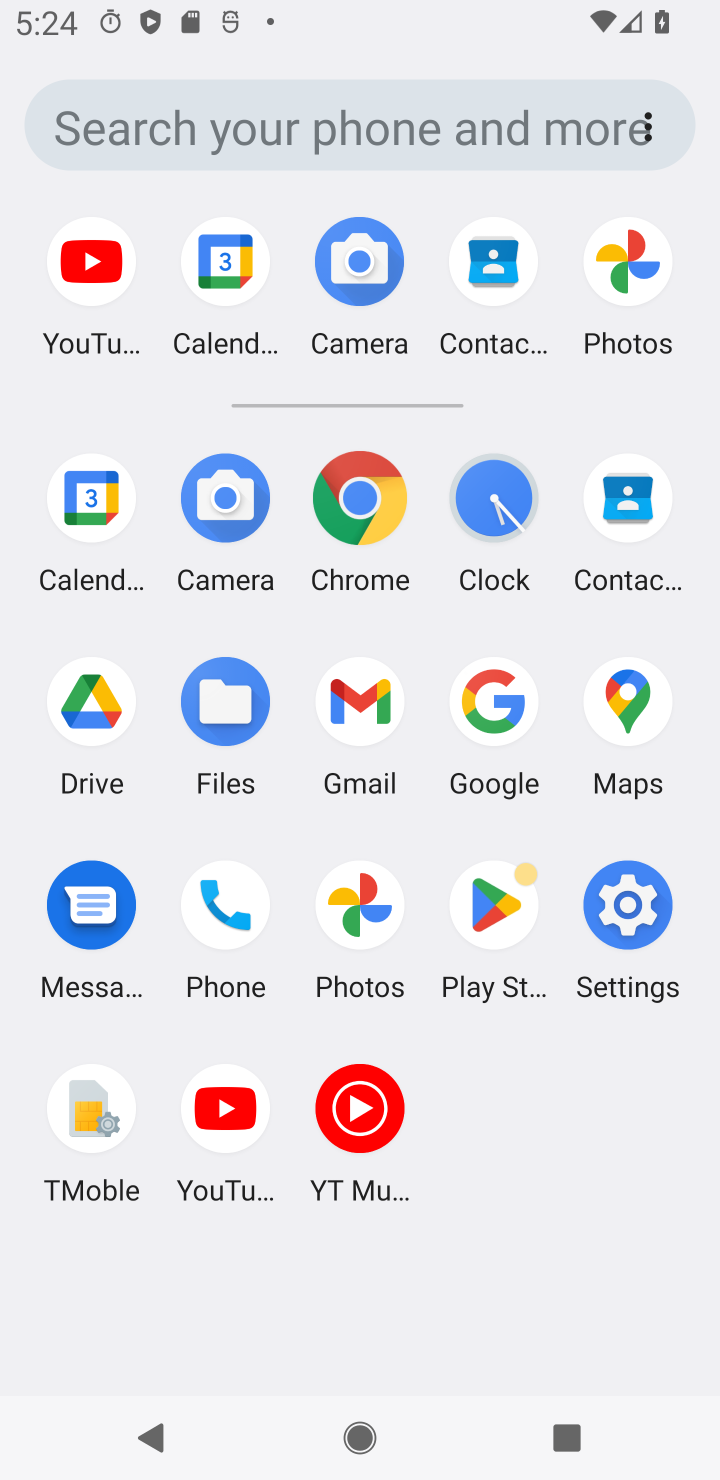
Step 35: click (480, 612)
Your task to perform on an android device: delete browsing data in the chrome app Image 36: 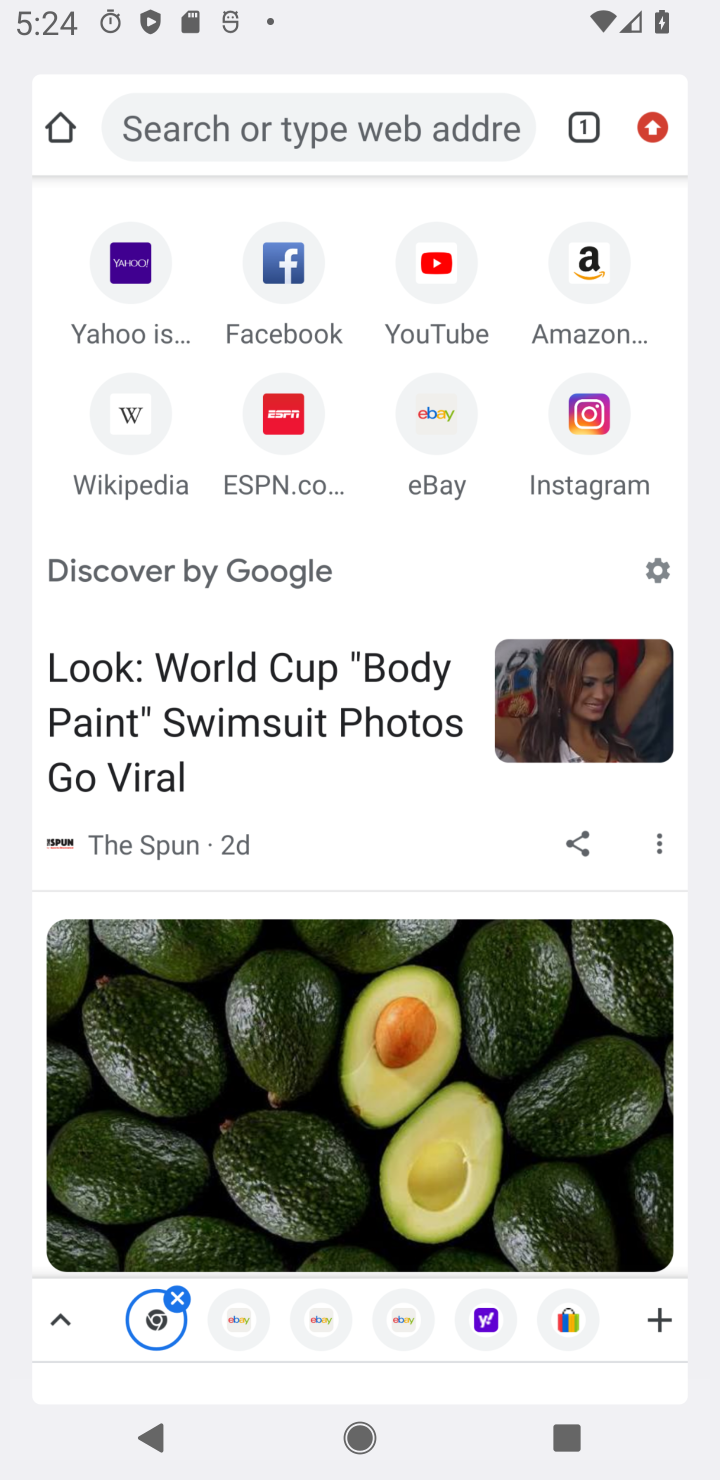
Step 36: click (481, 612)
Your task to perform on an android device: delete browsing data in the chrome app Image 37: 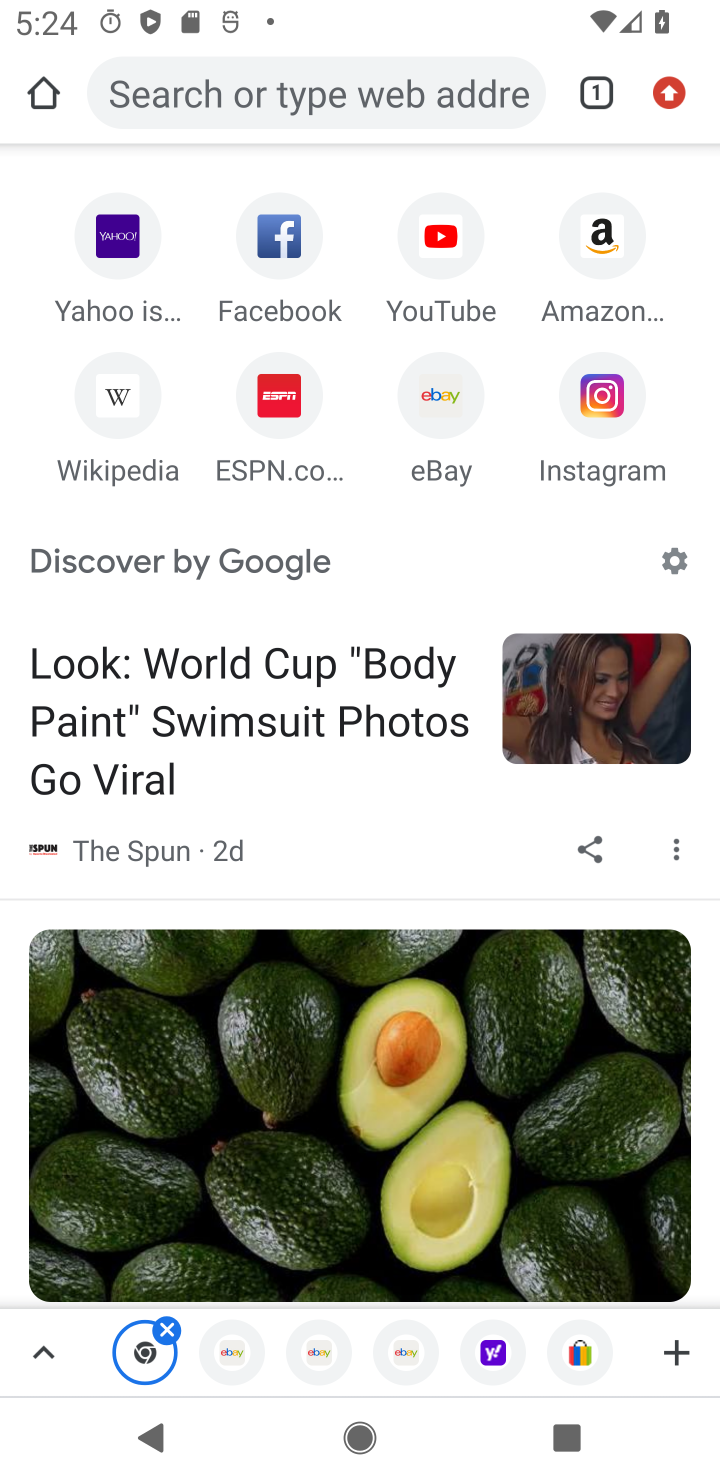
Step 37: drag from (659, 88) to (565, 899)
Your task to perform on an android device: delete browsing data in the chrome app Image 38: 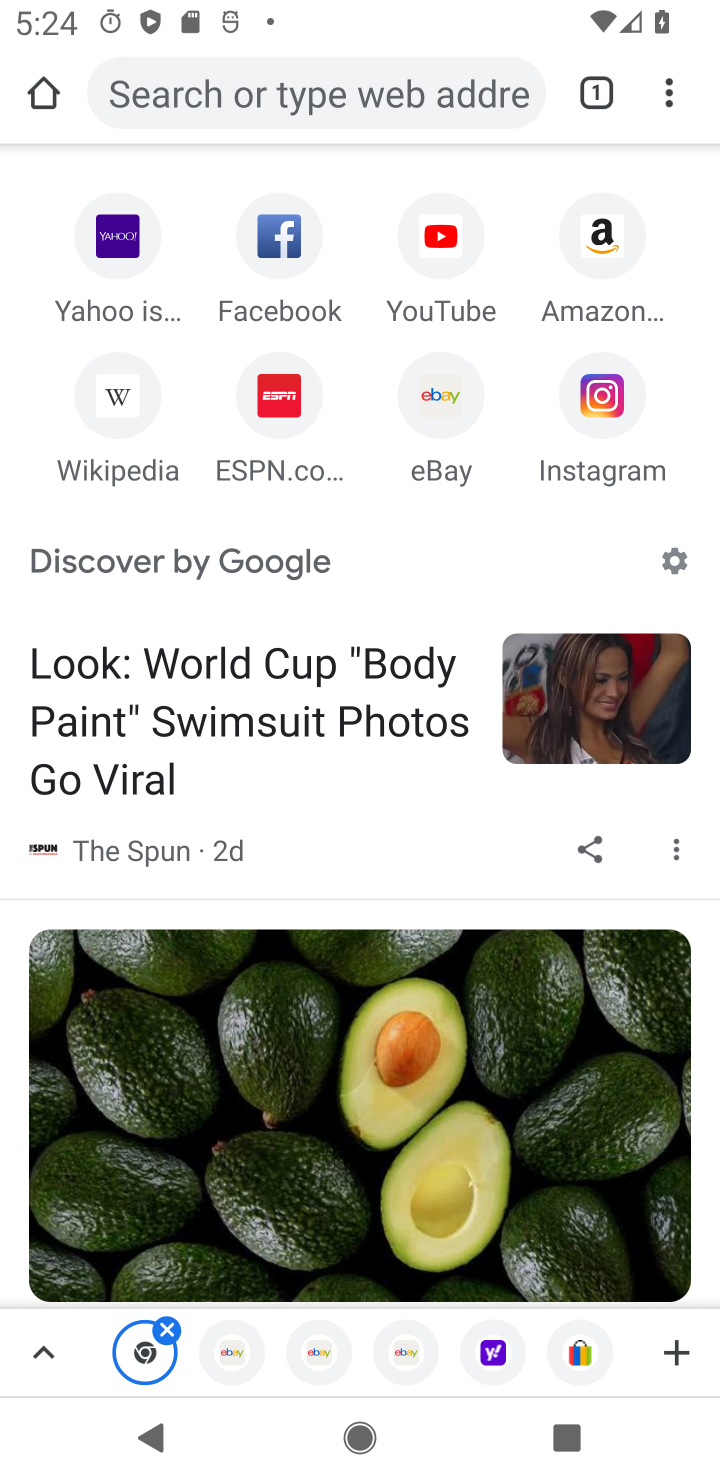
Step 38: drag from (677, 72) to (384, 533)
Your task to perform on an android device: delete browsing data in the chrome app Image 39: 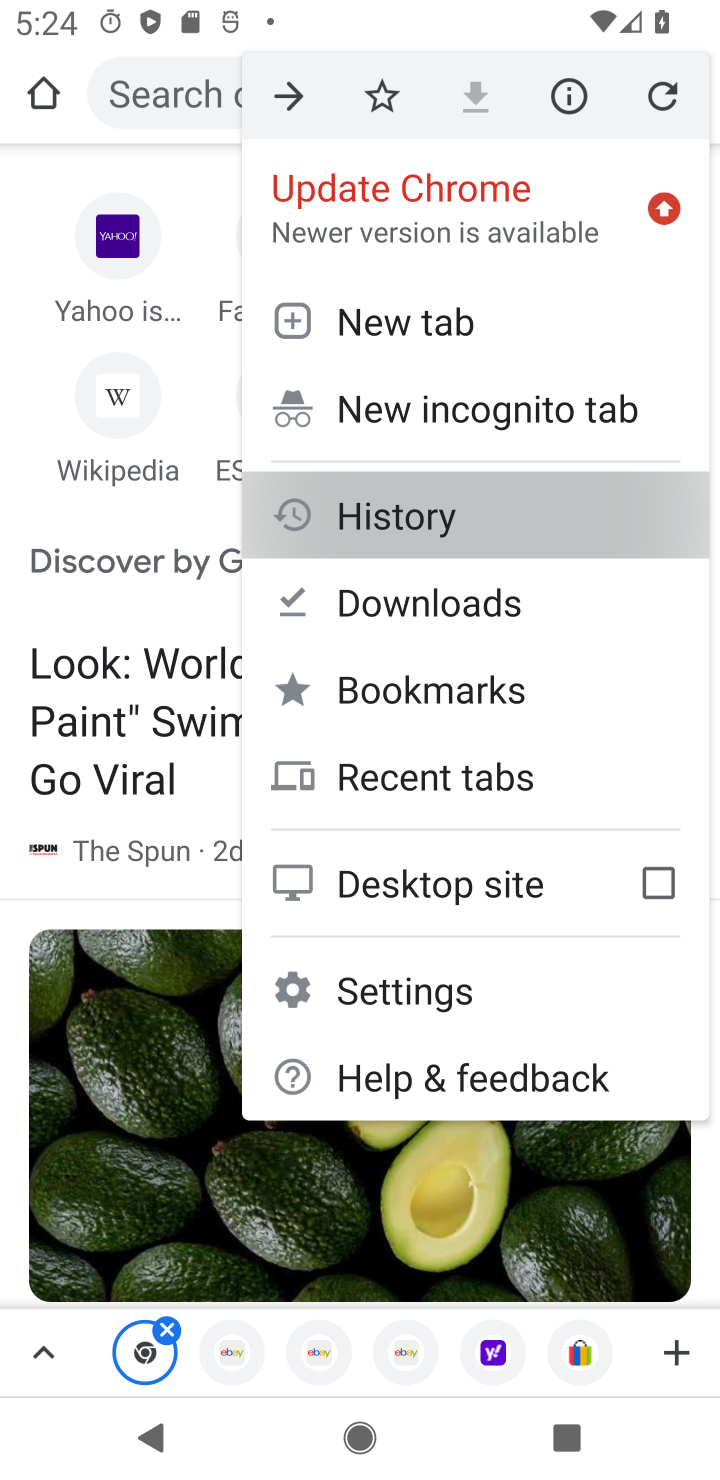
Step 39: click (384, 533)
Your task to perform on an android device: delete browsing data in the chrome app Image 40: 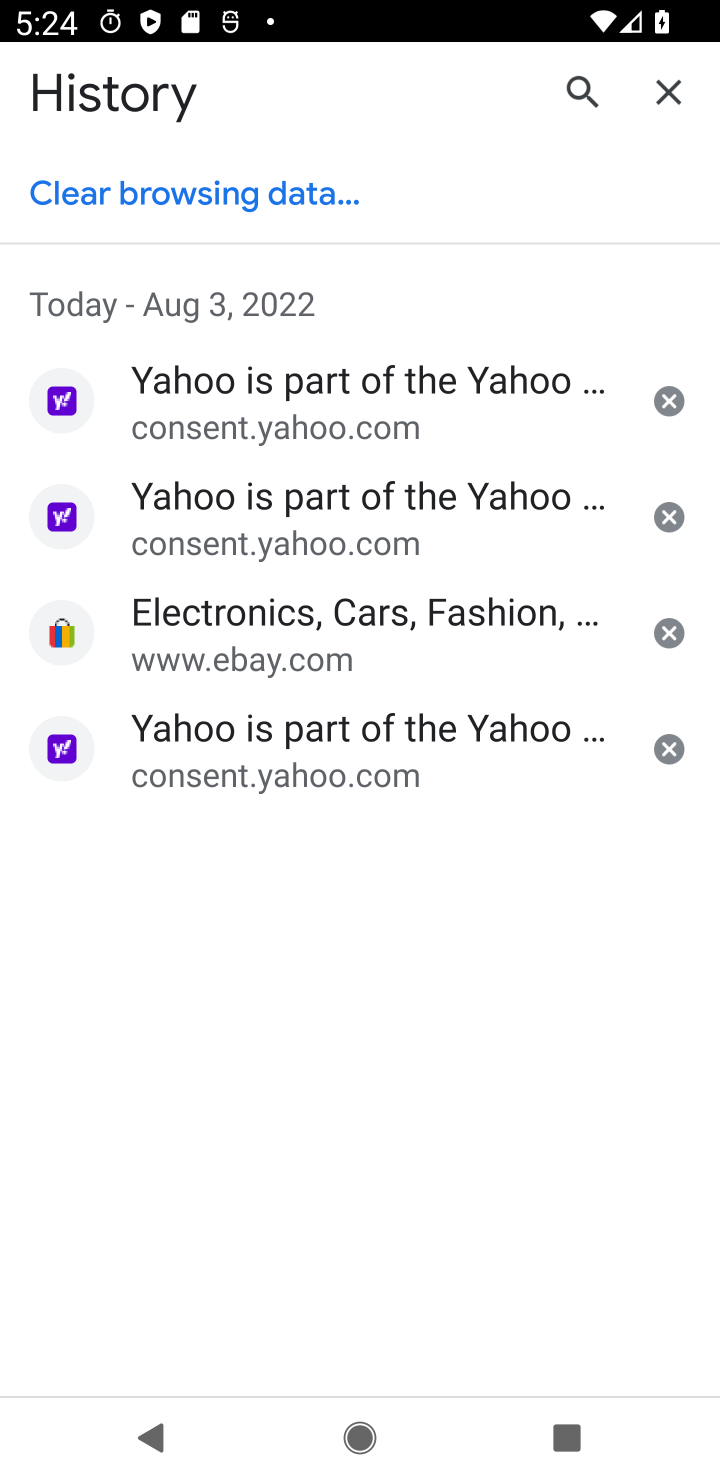
Step 40: click (95, 199)
Your task to perform on an android device: delete browsing data in the chrome app Image 41: 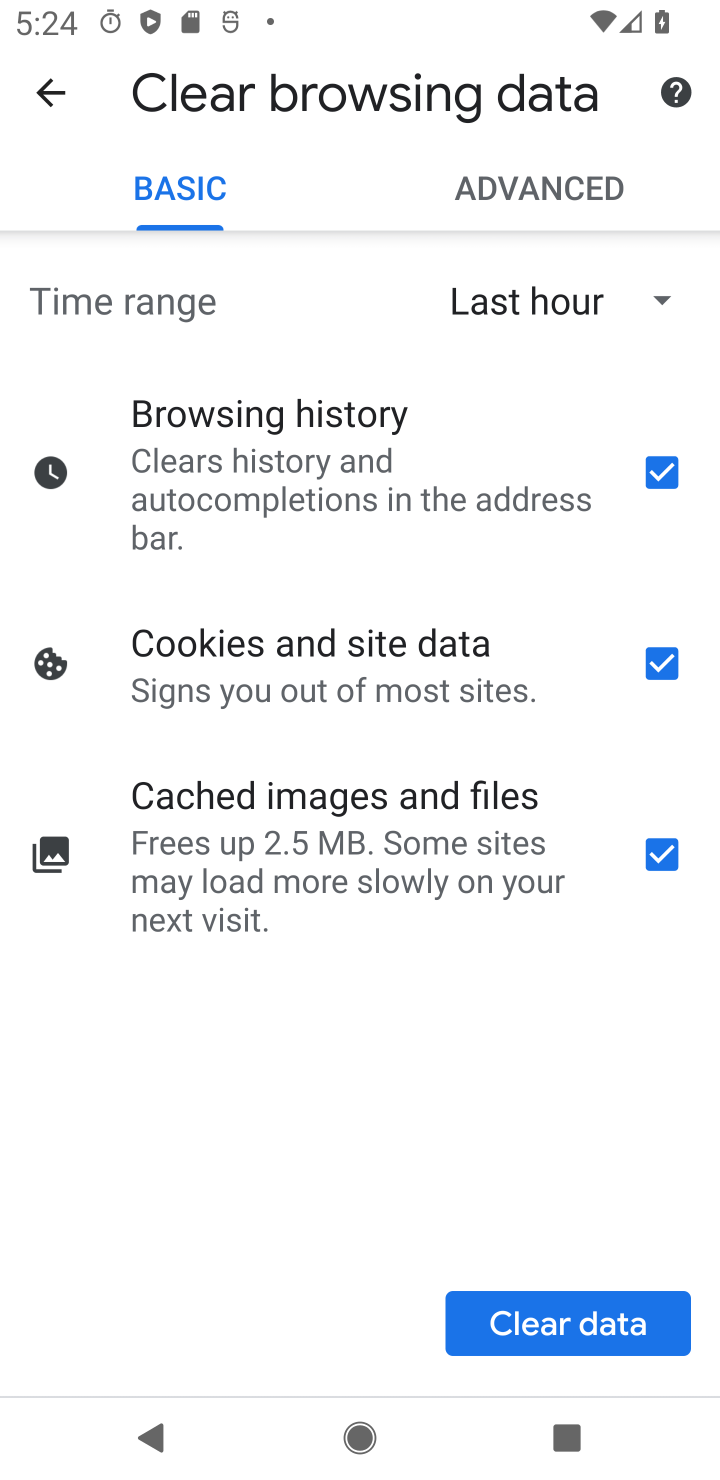
Step 41: click (550, 1305)
Your task to perform on an android device: delete browsing data in the chrome app Image 42: 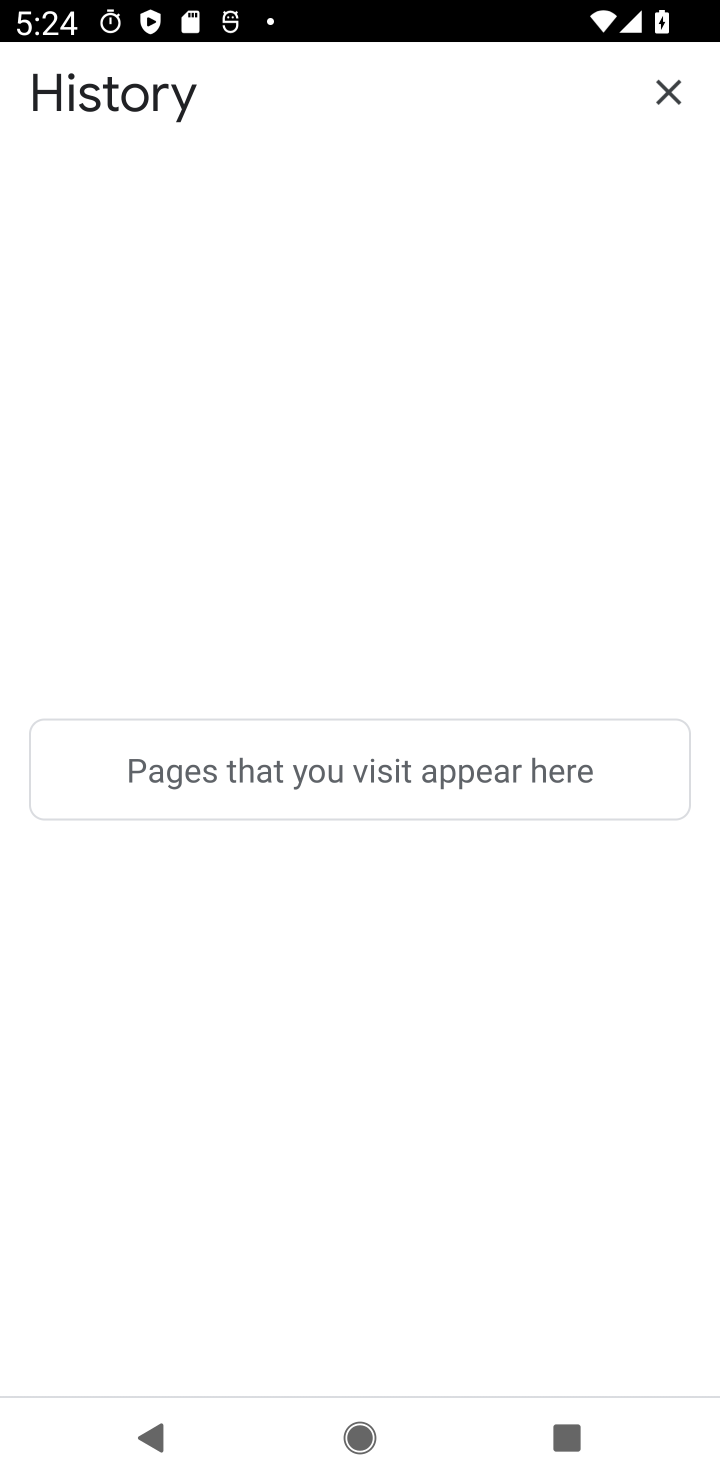
Step 42: task complete